Your task to perform on an android device: Show the shopping cart on bestbuy.com. Search for macbook air on bestbuy.com, select the first entry, add it to the cart, then select checkout. Image 0: 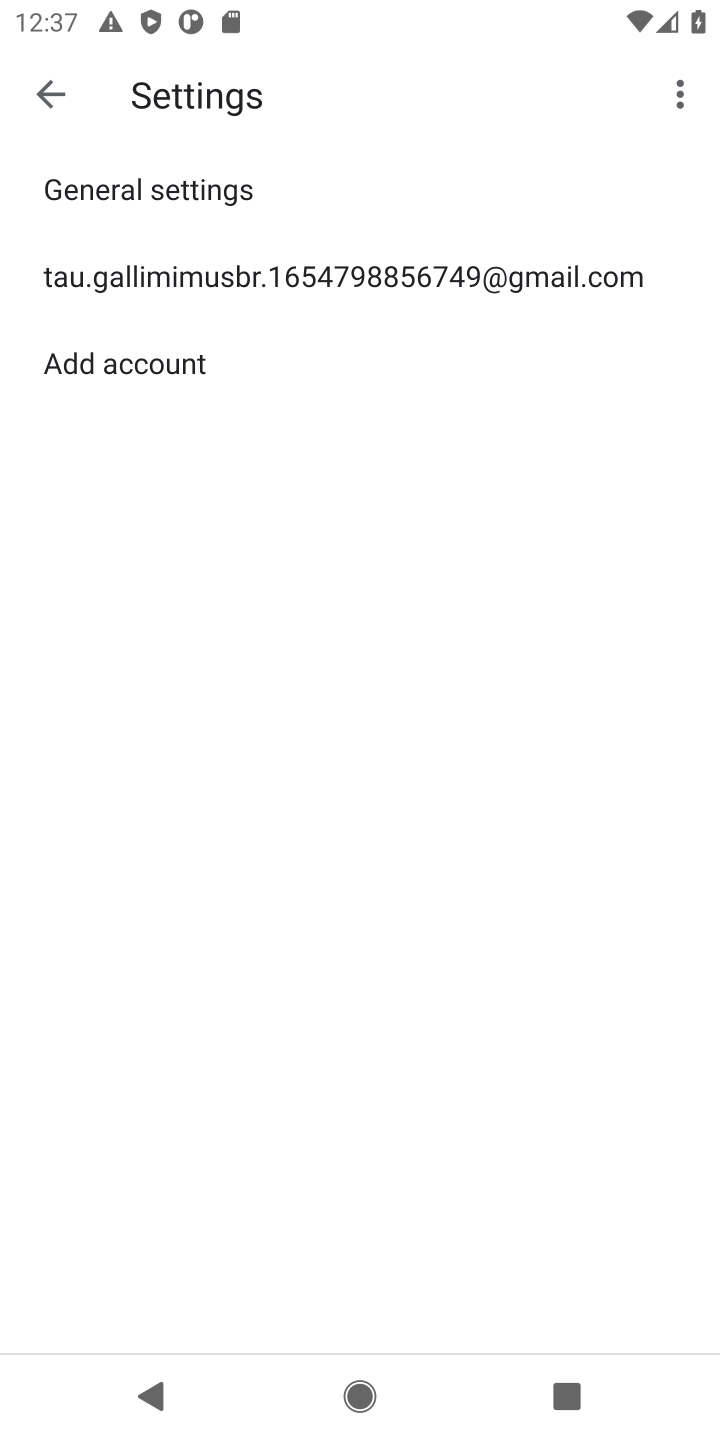
Step 0: press home button
Your task to perform on an android device: Show the shopping cart on bestbuy.com. Search for macbook air on bestbuy.com, select the first entry, add it to the cart, then select checkout. Image 1: 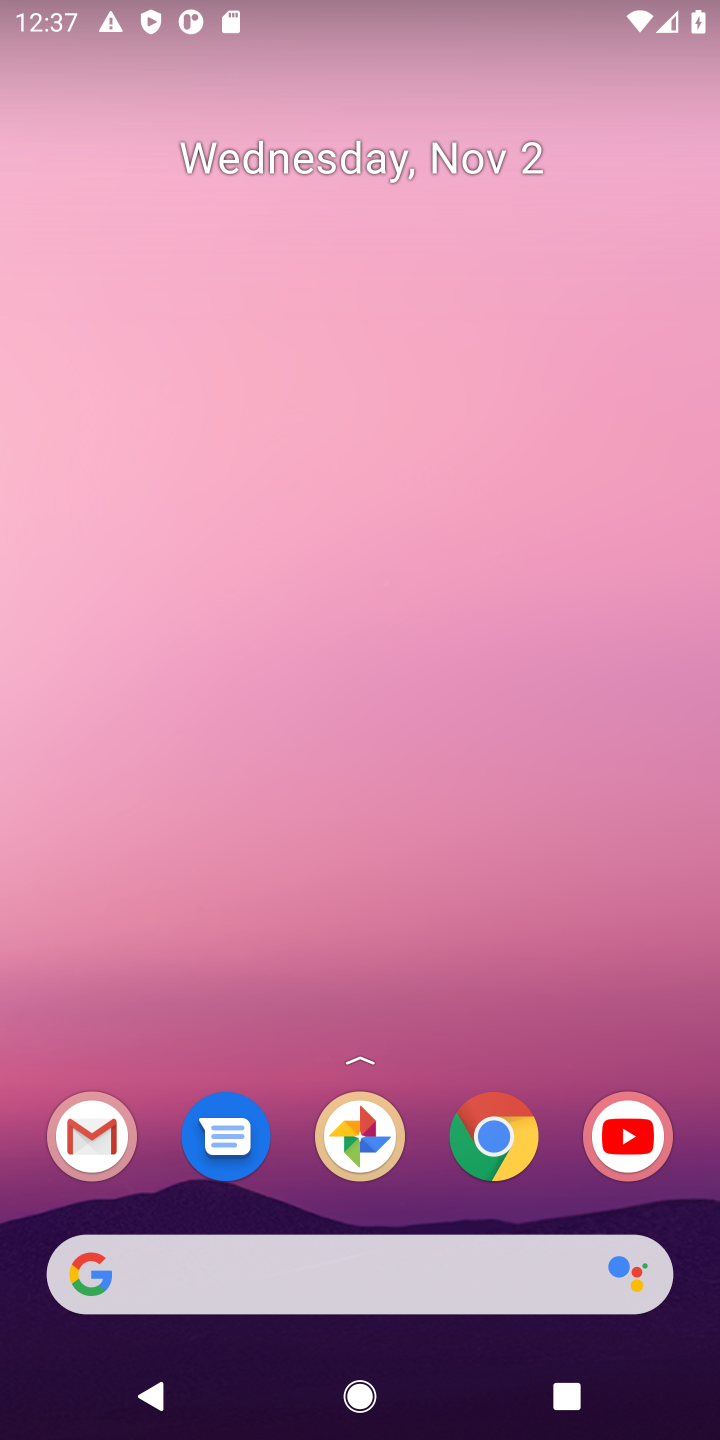
Step 1: click (497, 1130)
Your task to perform on an android device: Show the shopping cart on bestbuy.com. Search for macbook air on bestbuy.com, select the first entry, add it to the cart, then select checkout. Image 2: 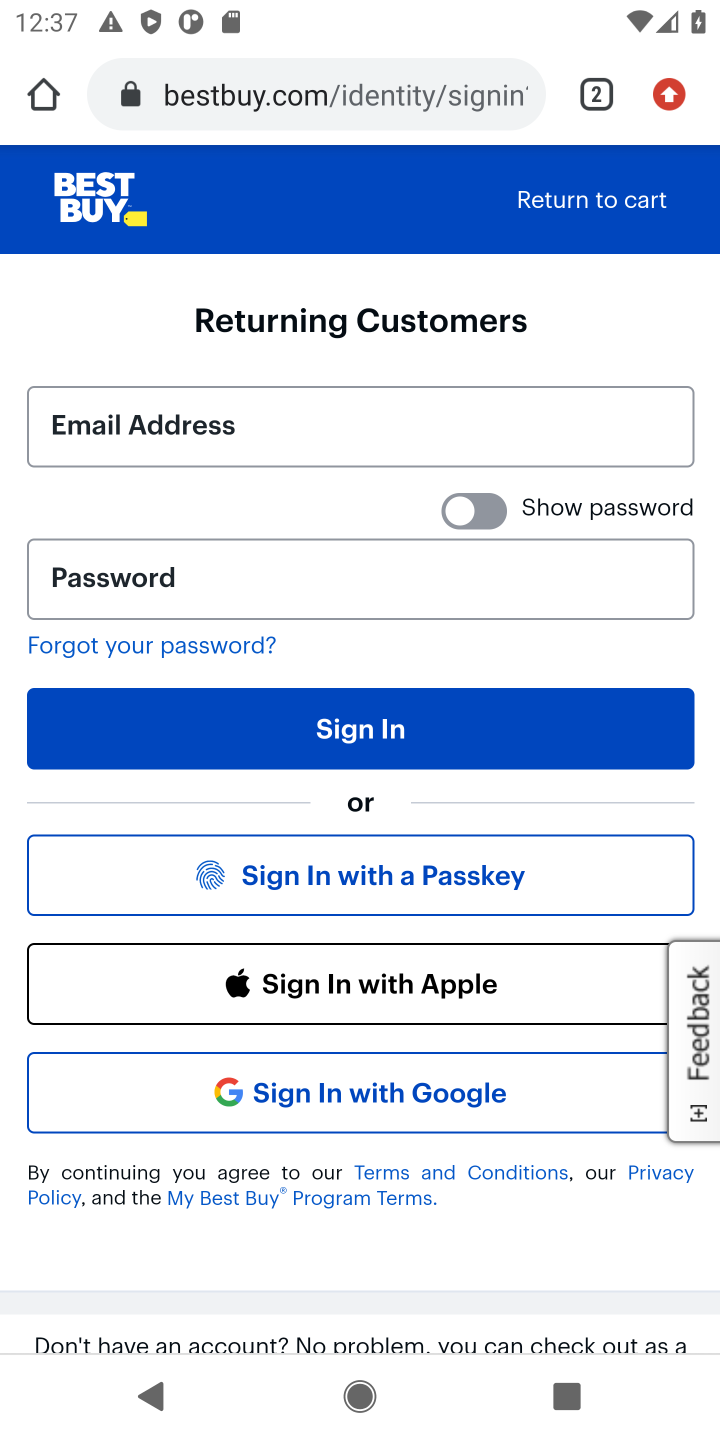
Step 2: click (220, 94)
Your task to perform on an android device: Show the shopping cart on bestbuy.com. Search for macbook air on bestbuy.com, select the first entry, add it to the cart, then select checkout. Image 3: 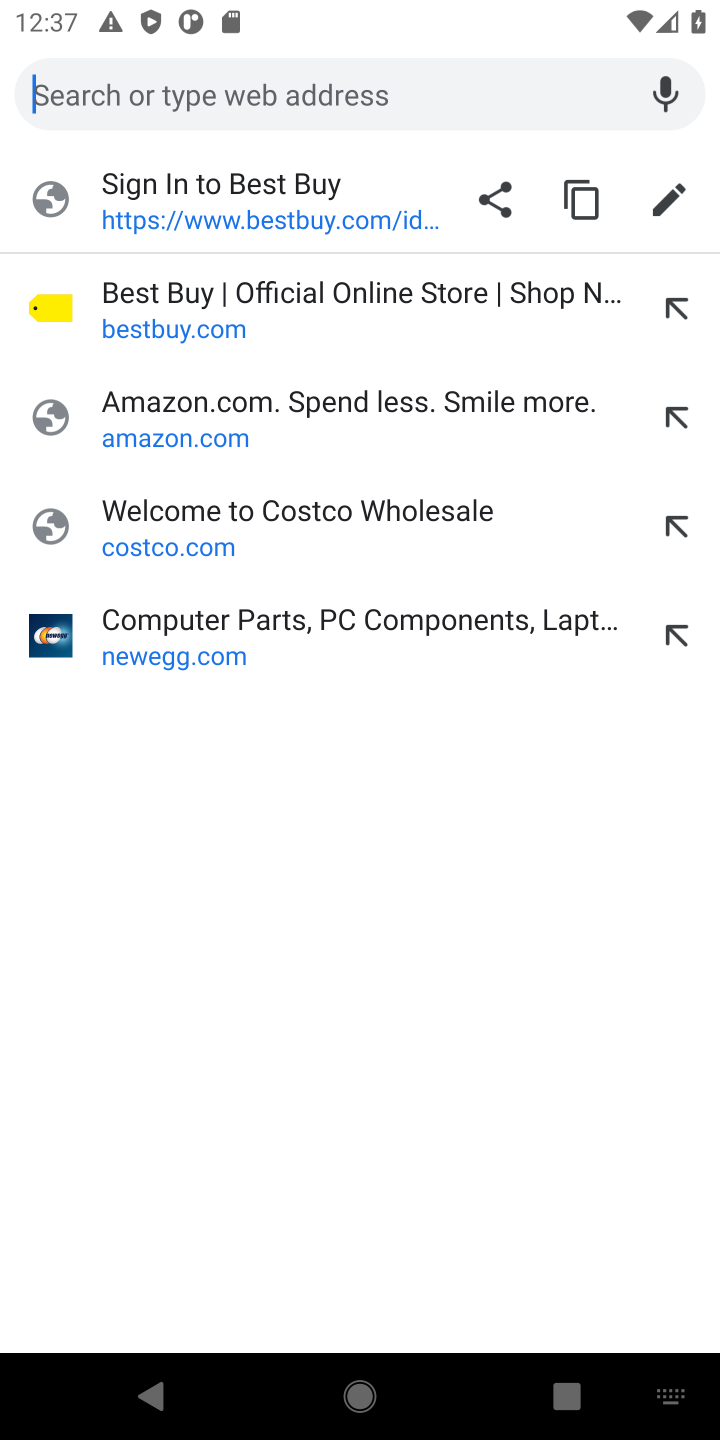
Step 3: click (218, 96)
Your task to perform on an android device: Show the shopping cart on bestbuy.com. Search for macbook air on bestbuy.com, select the first entry, add it to the cart, then select checkout. Image 4: 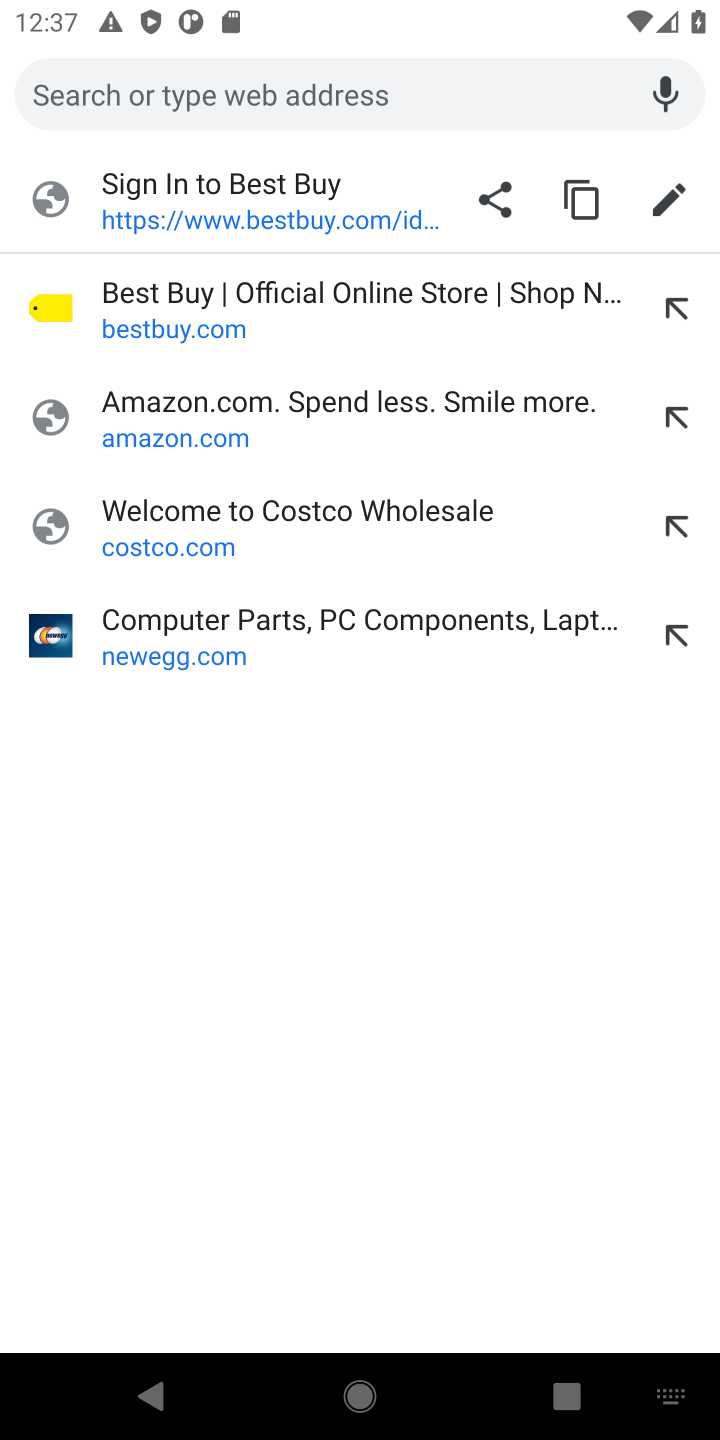
Step 4: click (225, 322)
Your task to perform on an android device: Show the shopping cart on bestbuy.com. Search for macbook air on bestbuy.com, select the first entry, add it to the cart, then select checkout. Image 5: 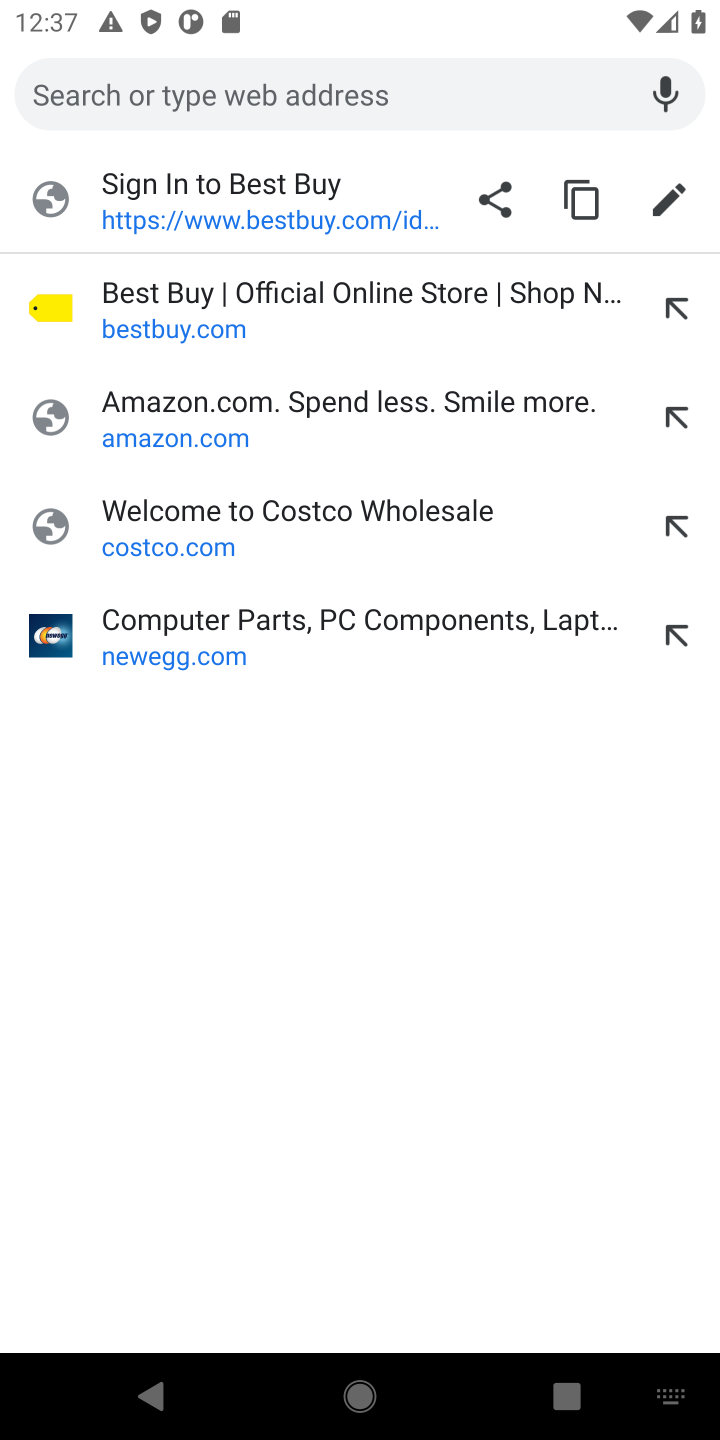
Step 5: click (241, 326)
Your task to perform on an android device: Show the shopping cart on bestbuy.com. Search for macbook air on bestbuy.com, select the first entry, add it to the cart, then select checkout. Image 6: 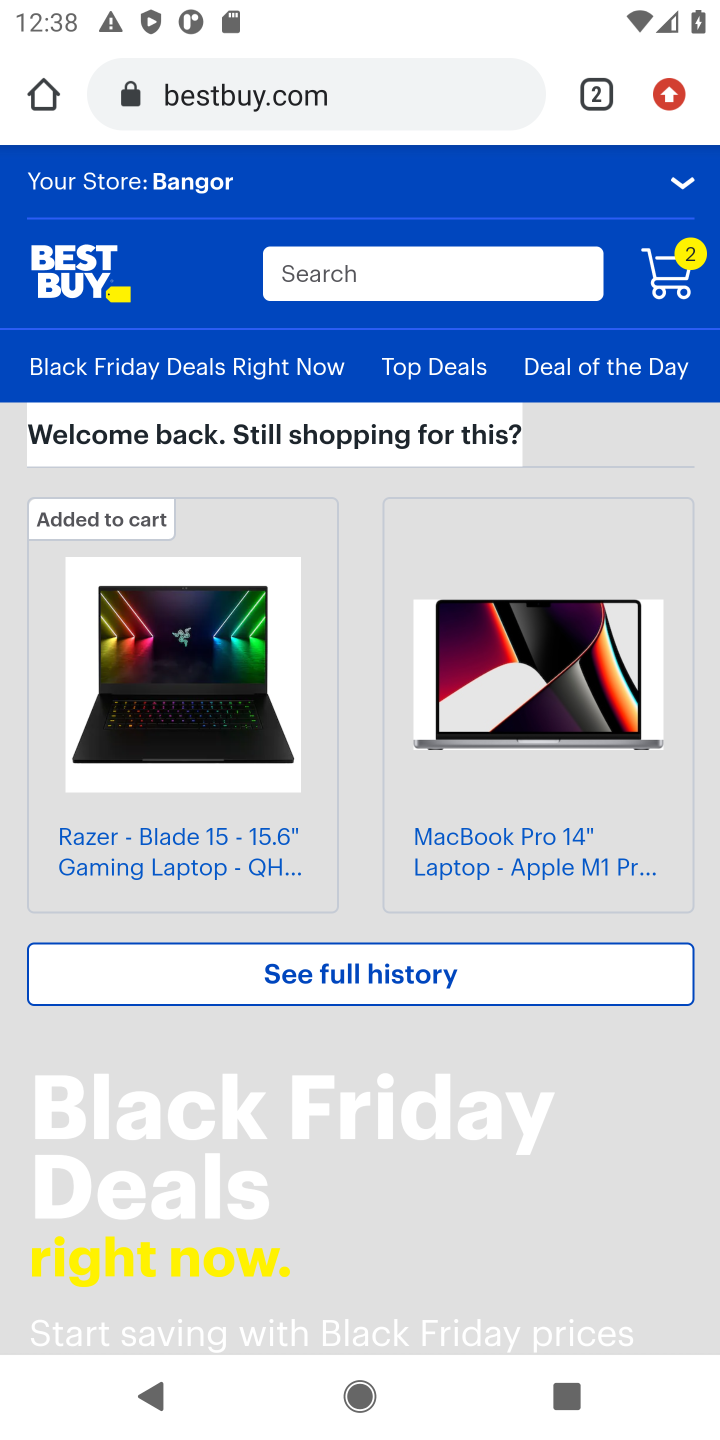
Step 6: click (663, 268)
Your task to perform on an android device: Show the shopping cart on bestbuy.com. Search for macbook air on bestbuy.com, select the first entry, add it to the cart, then select checkout. Image 7: 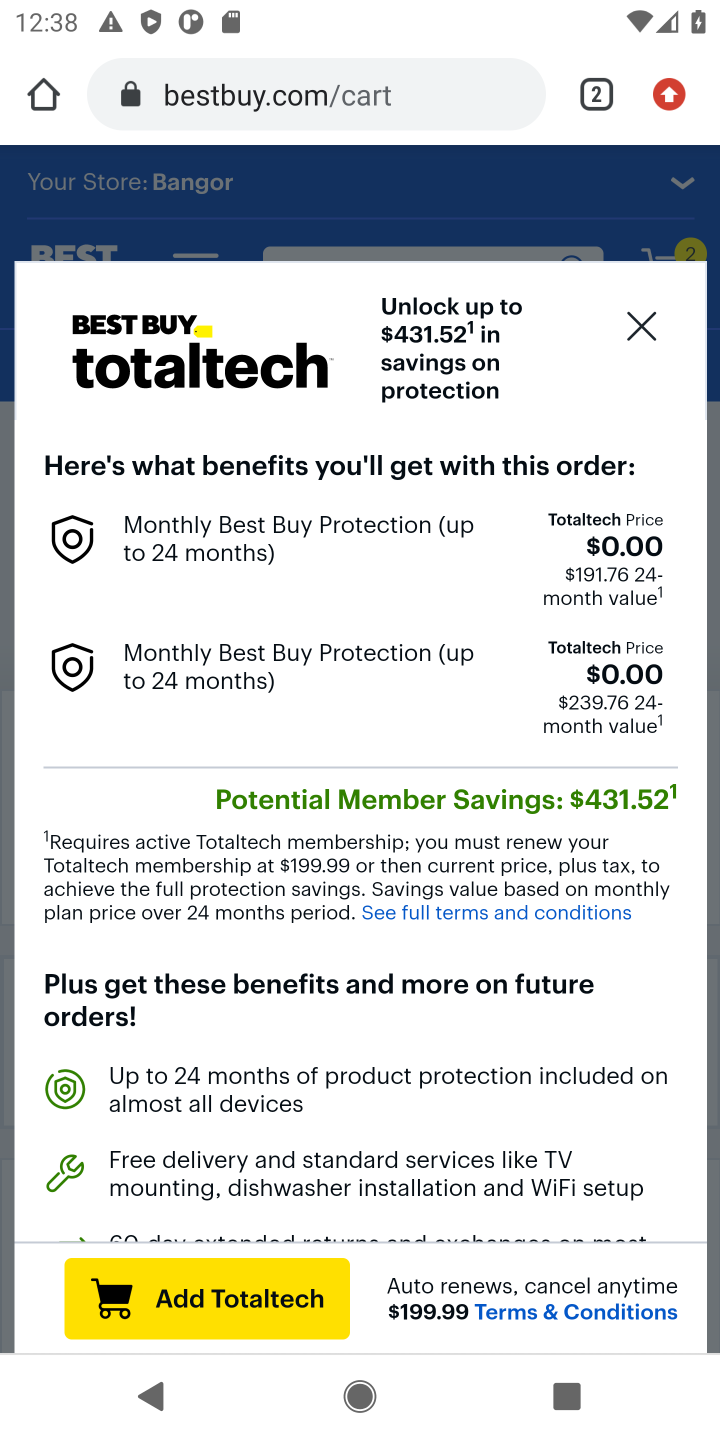
Step 7: click (644, 332)
Your task to perform on an android device: Show the shopping cart on bestbuy.com. Search for macbook air on bestbuy.com, select the first entry, add it to the cart, then select checkout. Image 8: 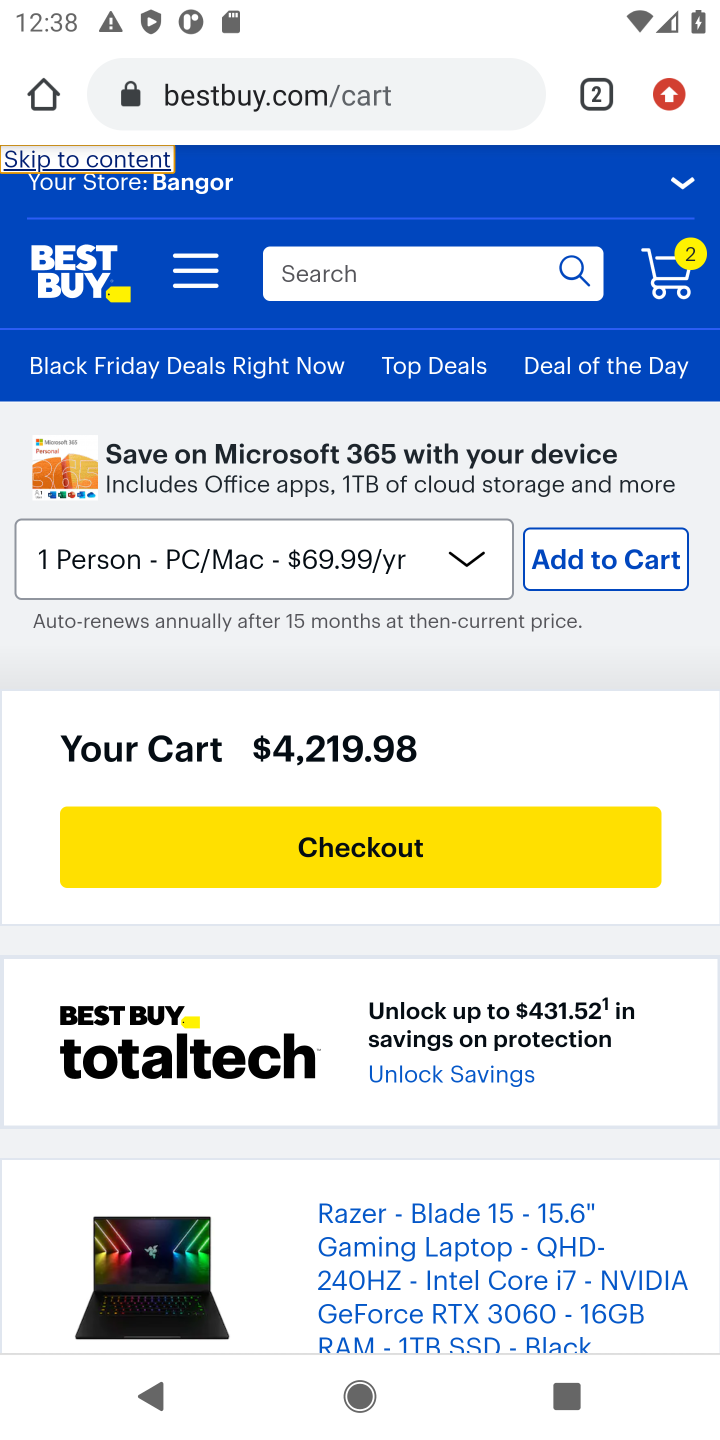
Step 8: click (478, 278)
Your task to perform on an android device: Show the shopping cart on bestbuy.com. Search for macbook air on bestbuy.com, select the first entry, add it to the cart, then select checkout. Image 9: 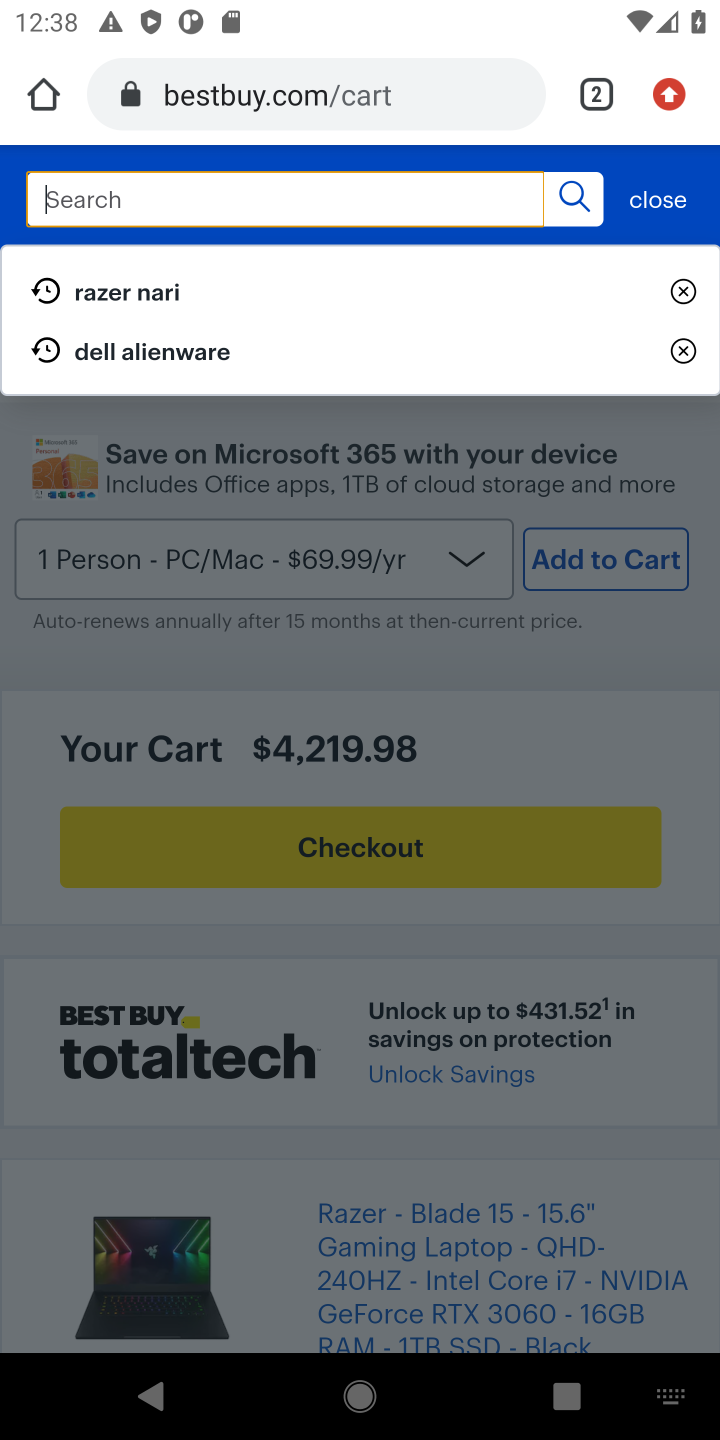
Step 9: type "macbook air"
Your task to perform on an android device: Show the shopping cart on bestbuy.com. Search for macbook air on bestbuy.com, select the first entry, add it to the cart, then select checkout. Image 10: 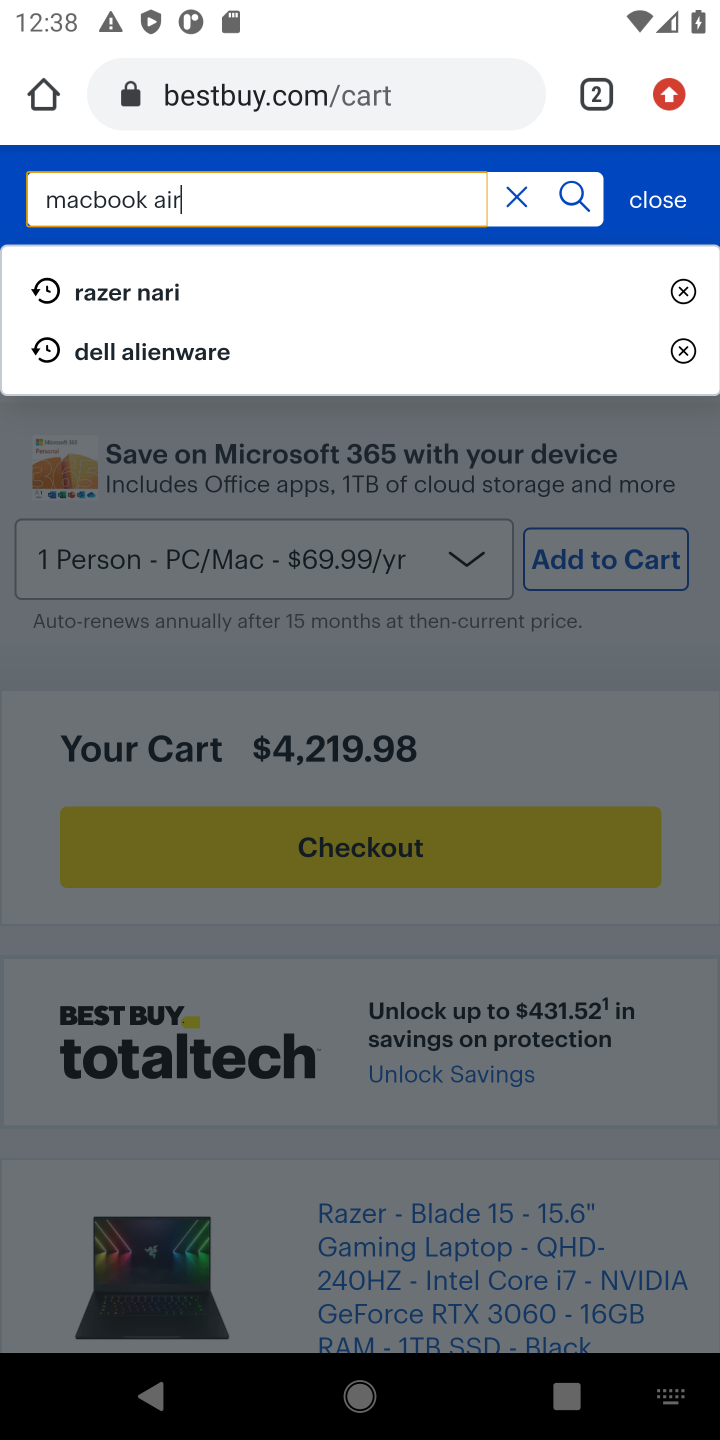
Step 10: type ""
Your task to perform on an android device: Show the shopping cart on bestbuy.com. Search for macbook air on bestbuy.com, select the first entry, add it to the cart, then select checkout. Image 11: 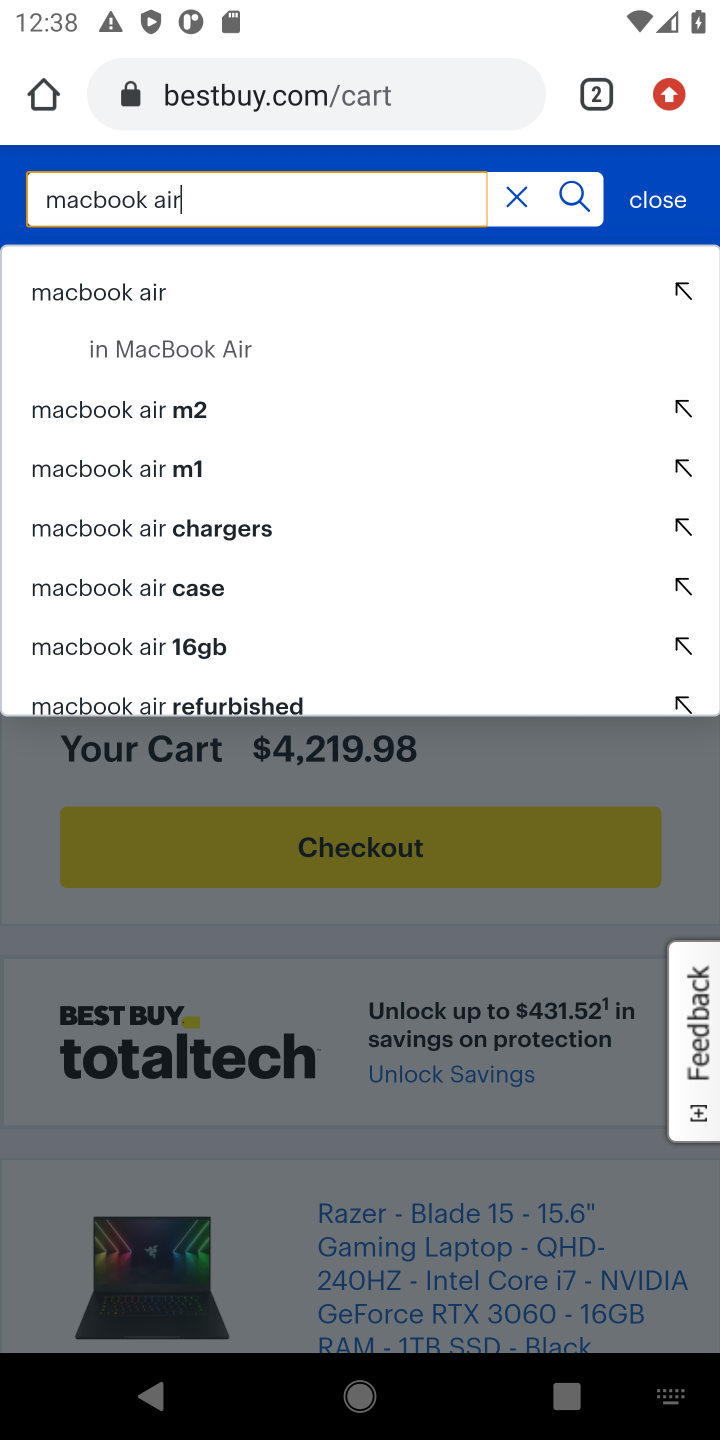
Step 11: click (162, 324)
Your task to perform on an android device: Show the shopping cart on bestbuy.com. Search for macbook air on bestbuy.com, select the first entry, add it to the cart, then select checkout. Image 12: 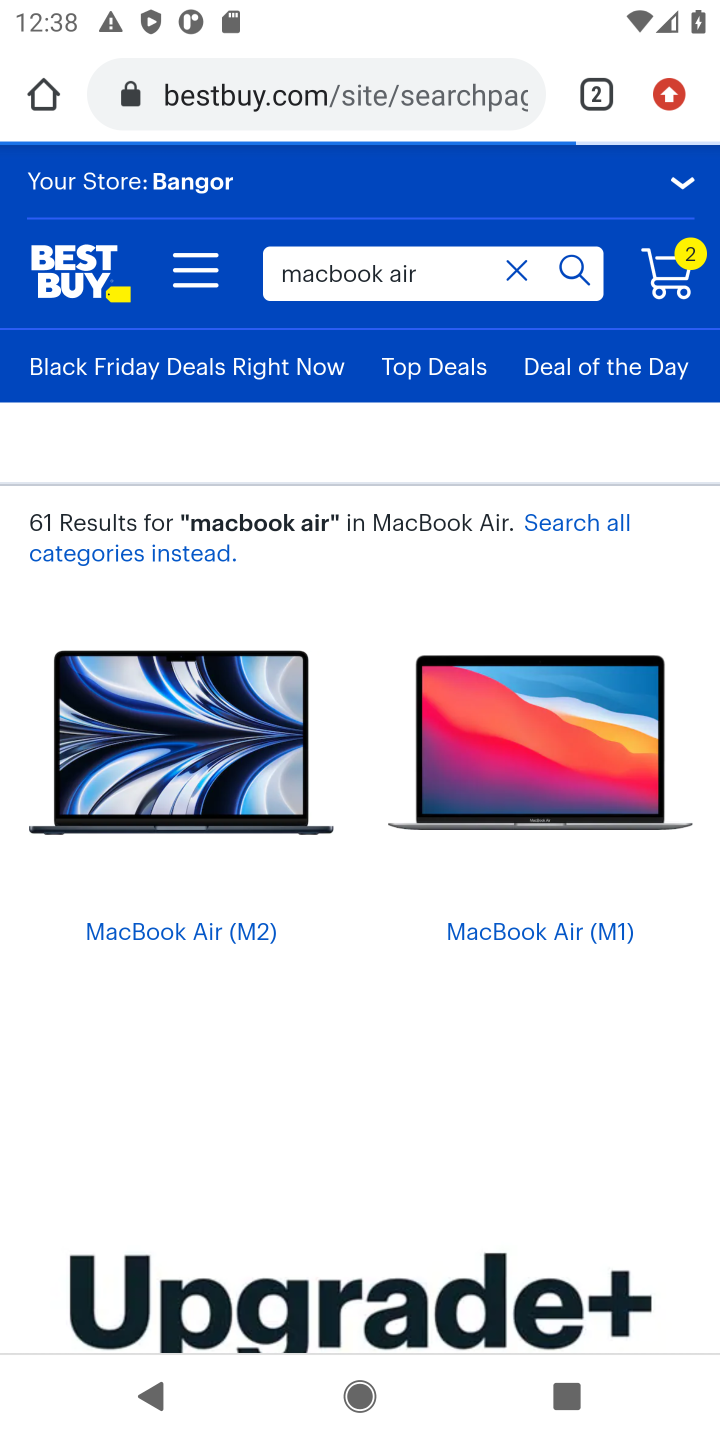
Step 12: click (310, 693)
Your task to perform on an android device: Show the shopping cart on bestbuy.com. Search for macbook air on bestbuy.com, select the first entry, add it to the cart, then select checkout. Image 13: 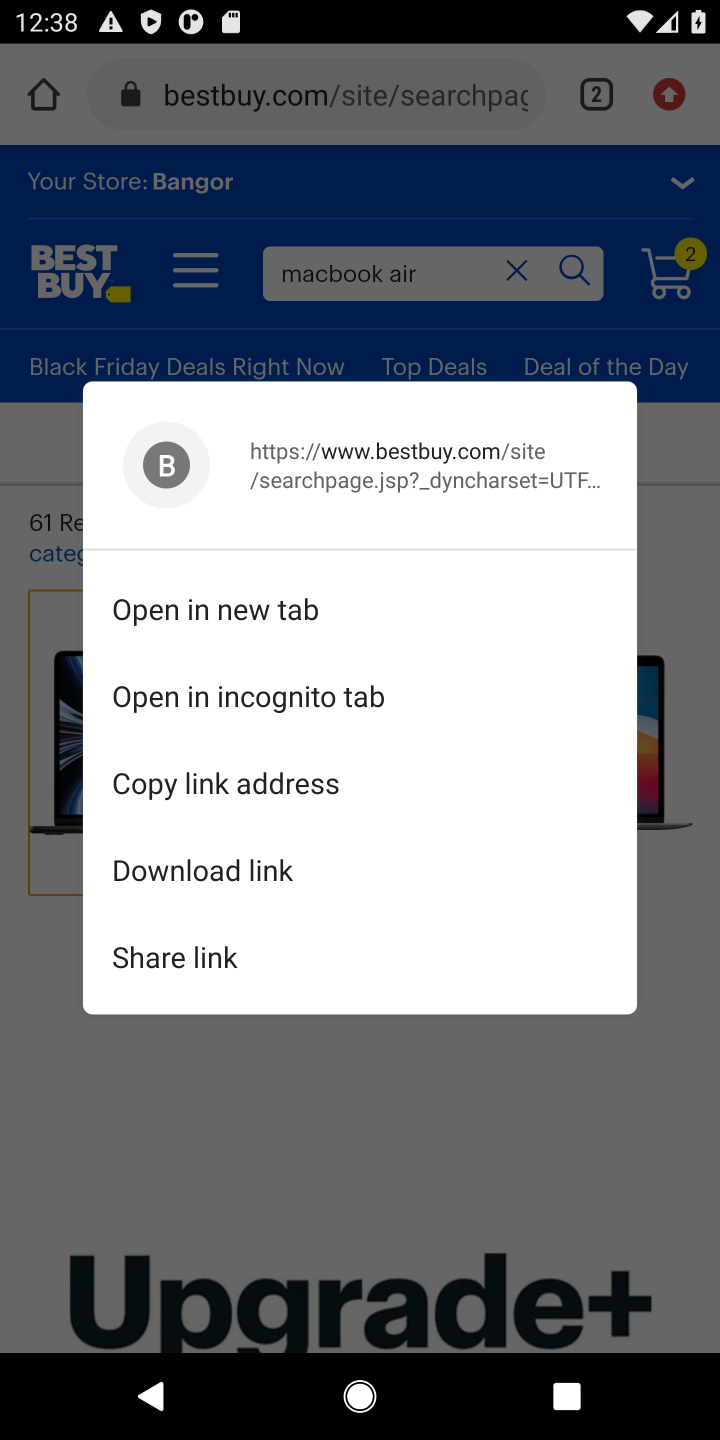
Step 13: click (424, 1044)
Your task to perform on an android device: Show the shopping cart on bestbuy.com. Search for macbook air on bestbuy.com, select the first entry, add it to the cart, then select checkout. Image 14: 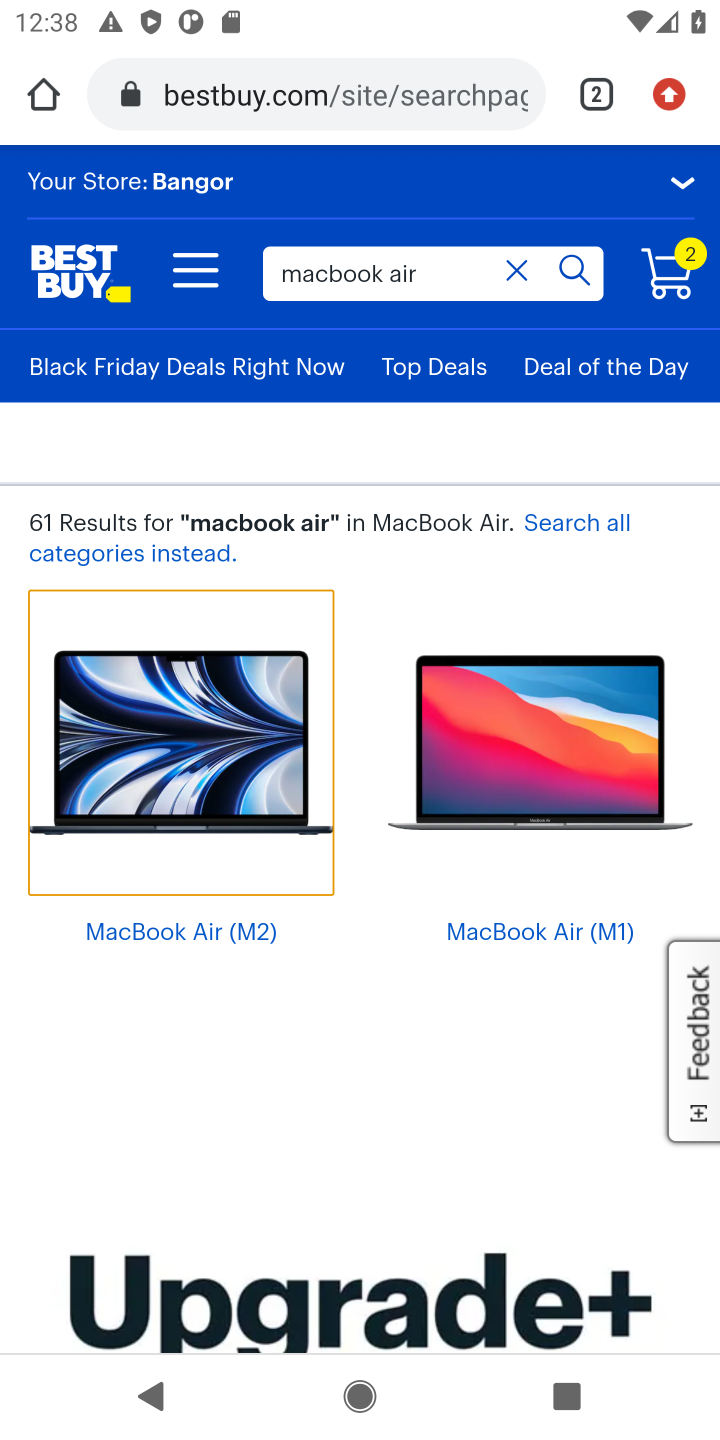
Step 14: click (228, 720)
Your task to perform on an android device: Show the shopping cart on bestbuy.com. Search for macbook air on bestbuy.com, select the first entry, add it to the cart, then select checkout. Image 15: 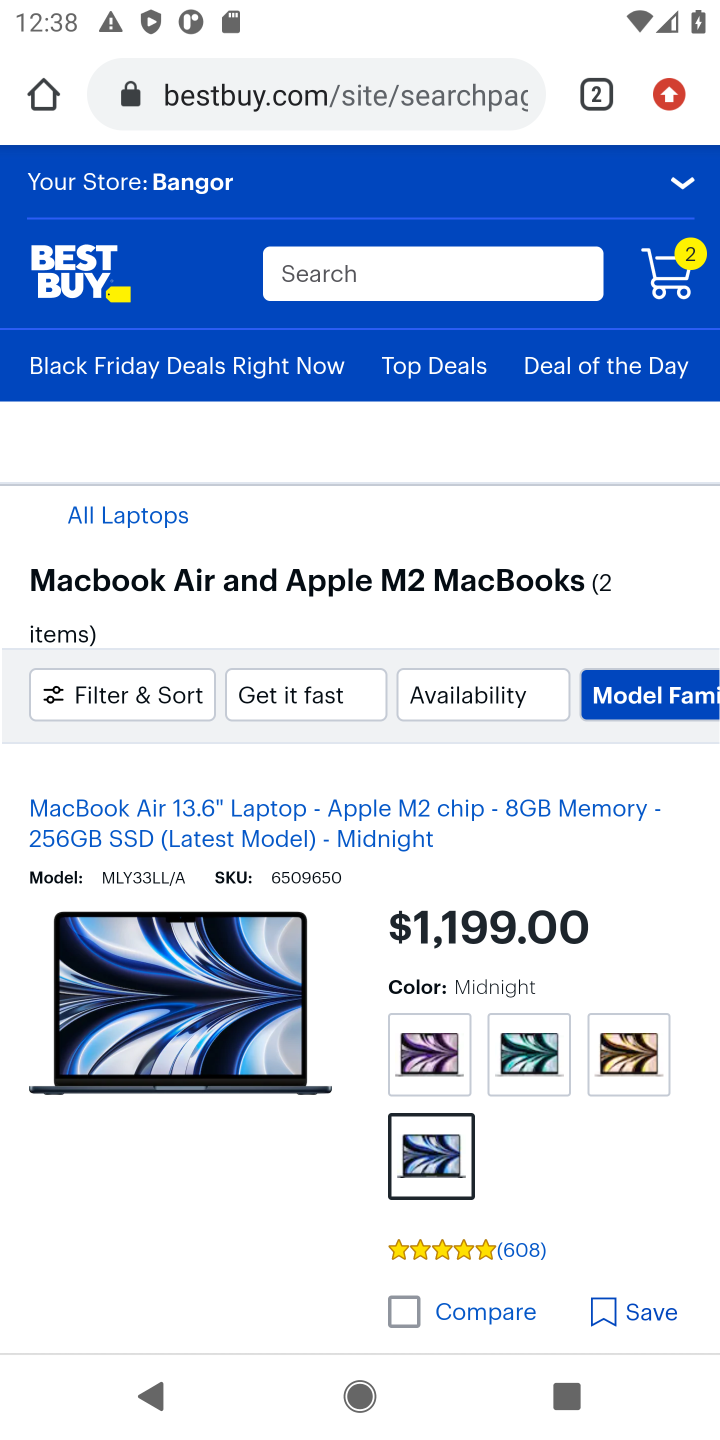
Step 15: drag from (300, 1145) to (287, 527)
Your task to perform on an android device: Show the shopping cart on bestbuy.com. Search for macbook air on bestbuy.com, select the first entry, add it to the cart, then select checkout. Image 16: 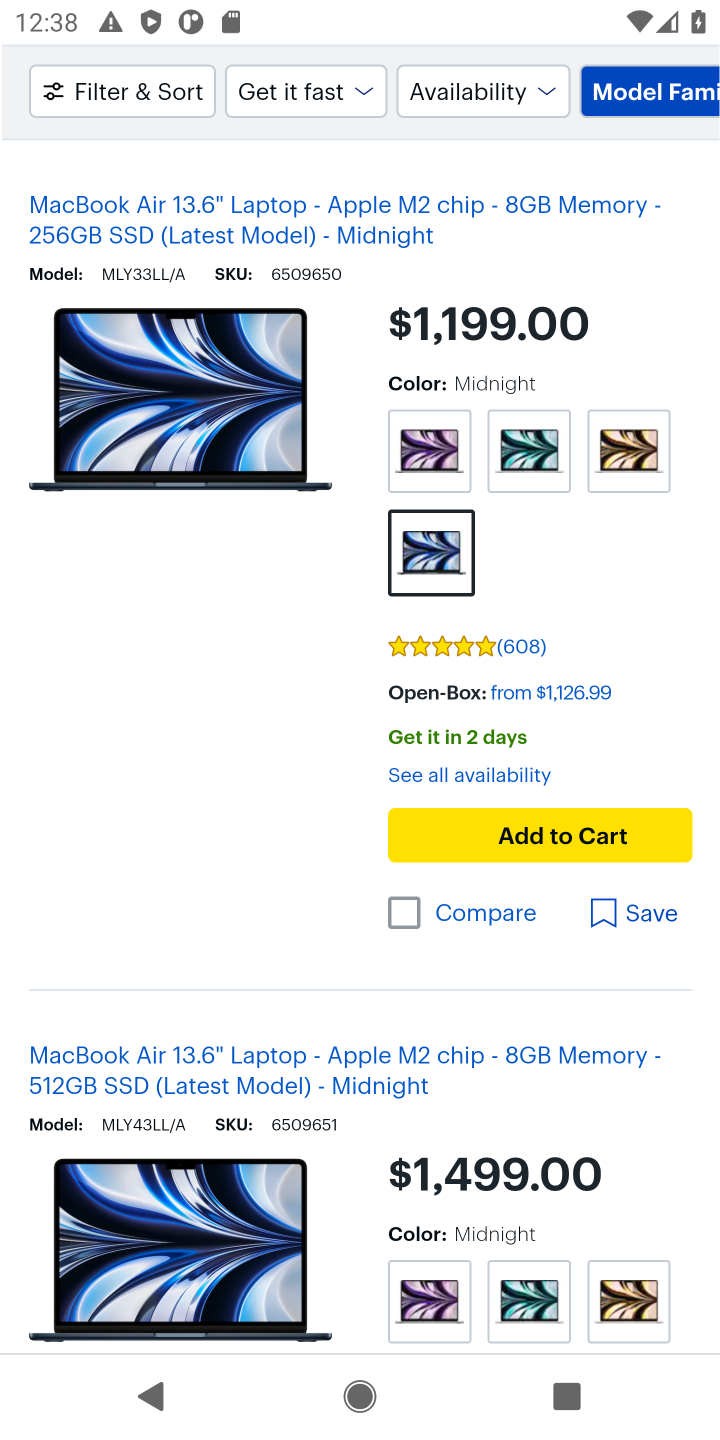
Step 16: click (530, 836)
Your task to perform on an android device: Show the shopping cart on bestbuy.com. Search for macbook air on bestbuy.com, select the first entry, add it to the cart, then select checkout. Image 17: 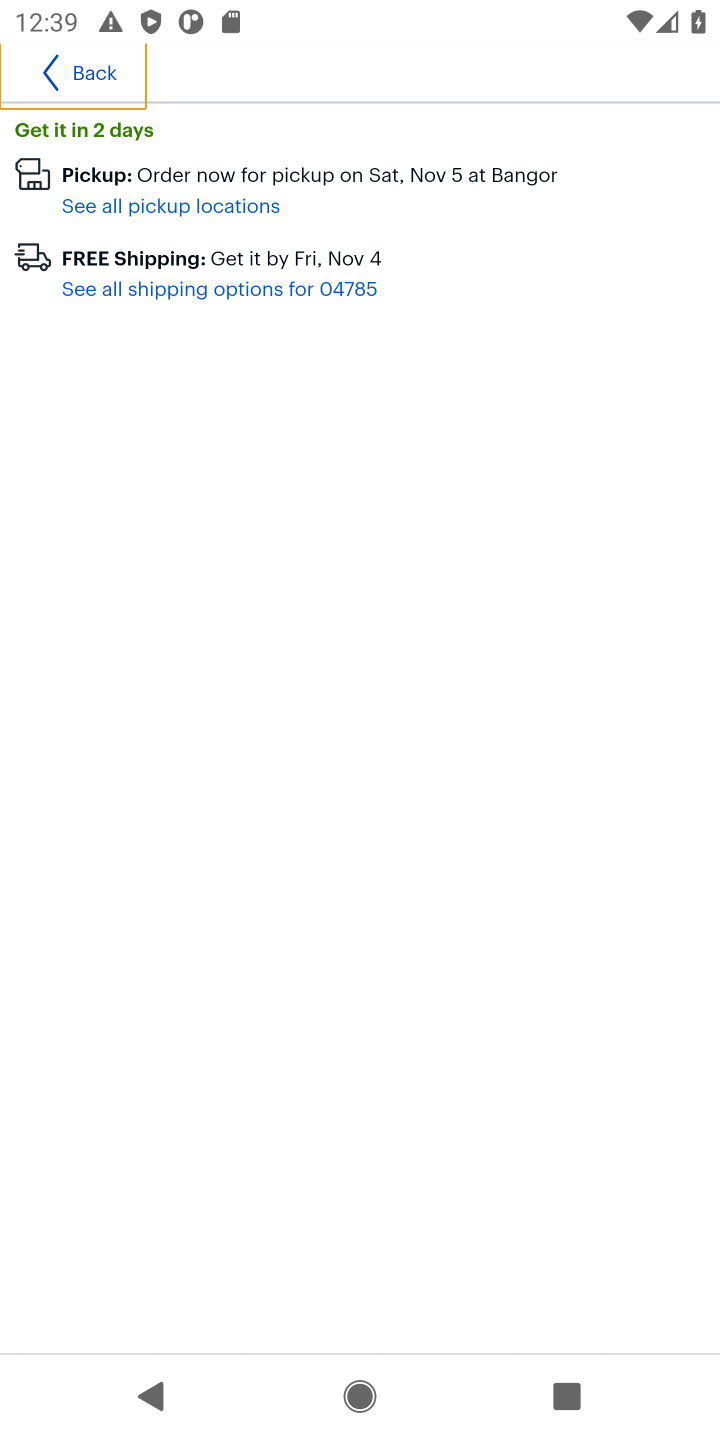
Step 17: click (188, 219)
Your task to perform on an android device: Show the shopping cart on bestbuy.com. Search for macbook air on bestbuy.com, select the first entry, add it to the cart, then select checkout. Image 18: 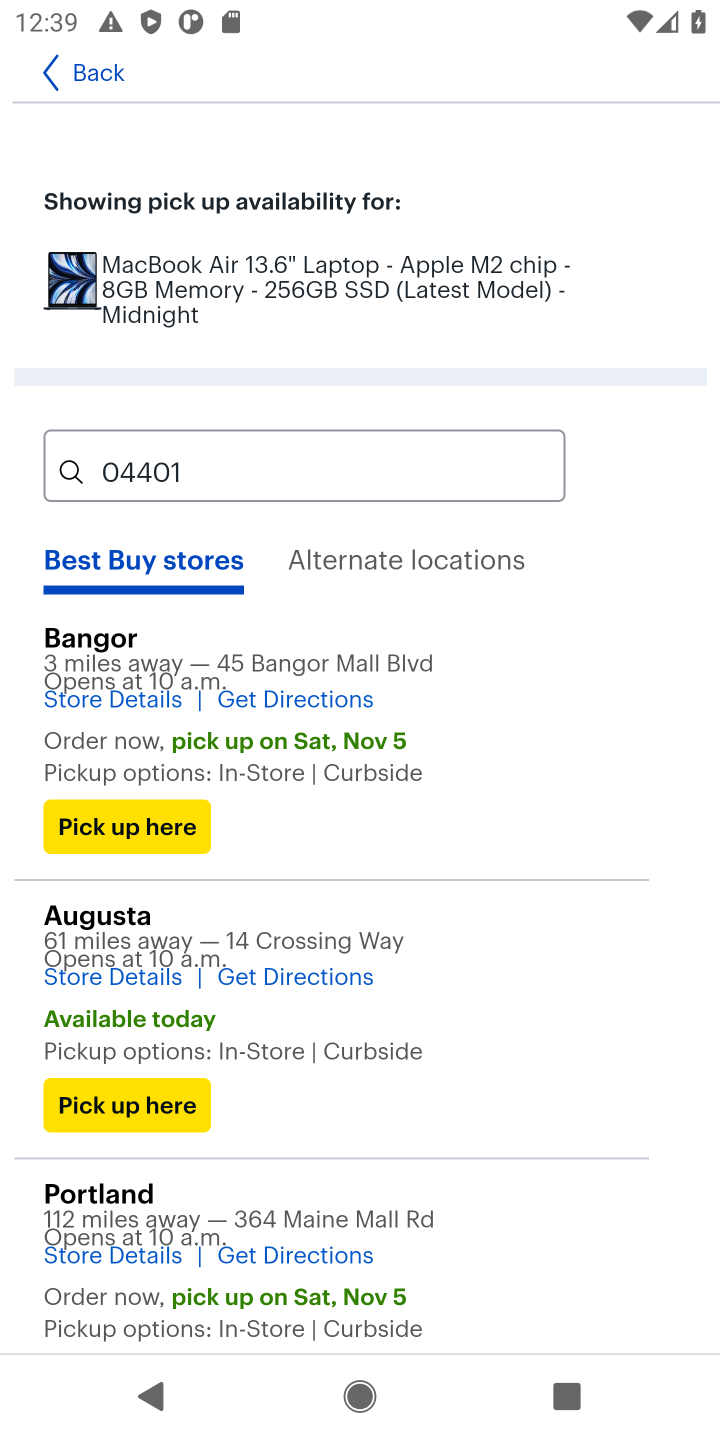
Step 18: press back button
Your task to perform on an android device: Show the shopping cart on bestbuy.com. Search for macbook air on bestbuy.com, select the first entry, add it to the cart, then select checkout. Image 19: 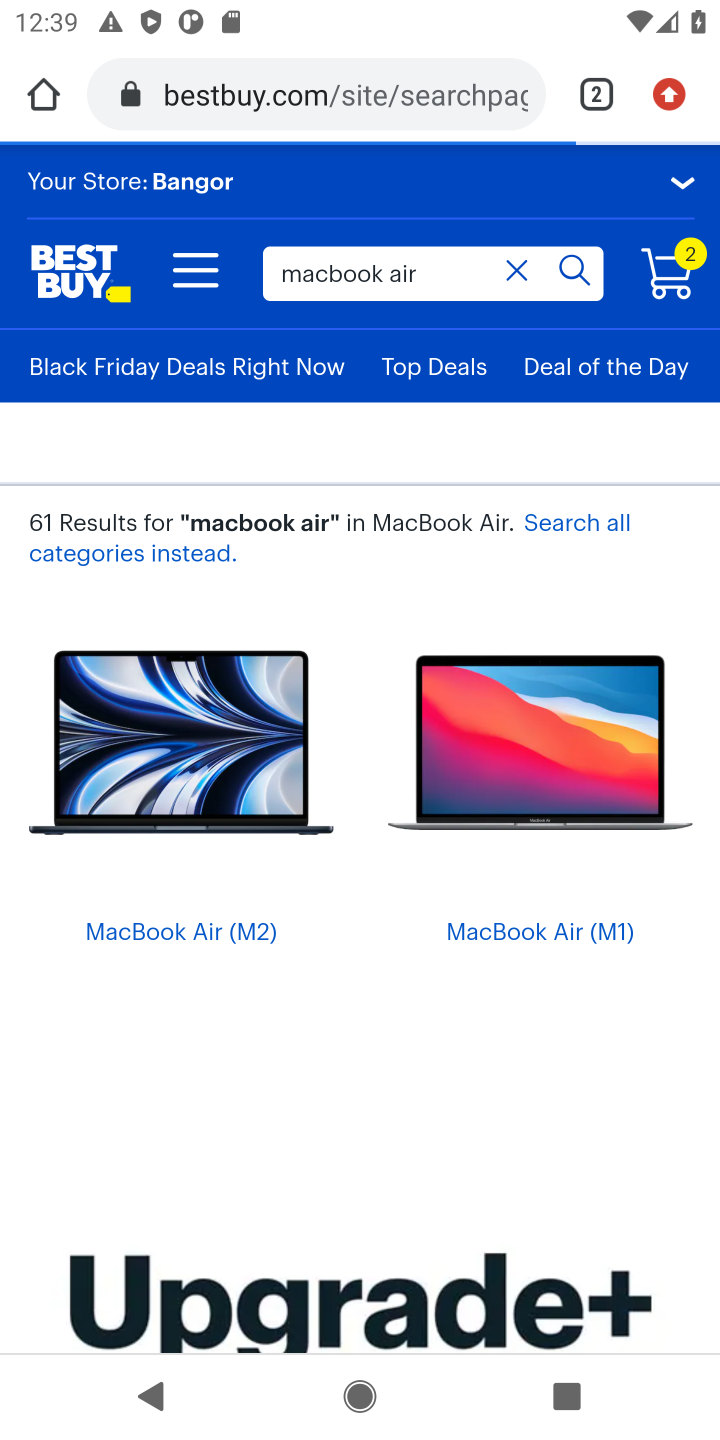
Step 19: click (248, 799)
Your task to perform on an android device: Show the shopping cart on bestbuy.com. Search for macbook air on bestbuy.com, select the first entry, add it to the cart, then select checkout. Image 20: 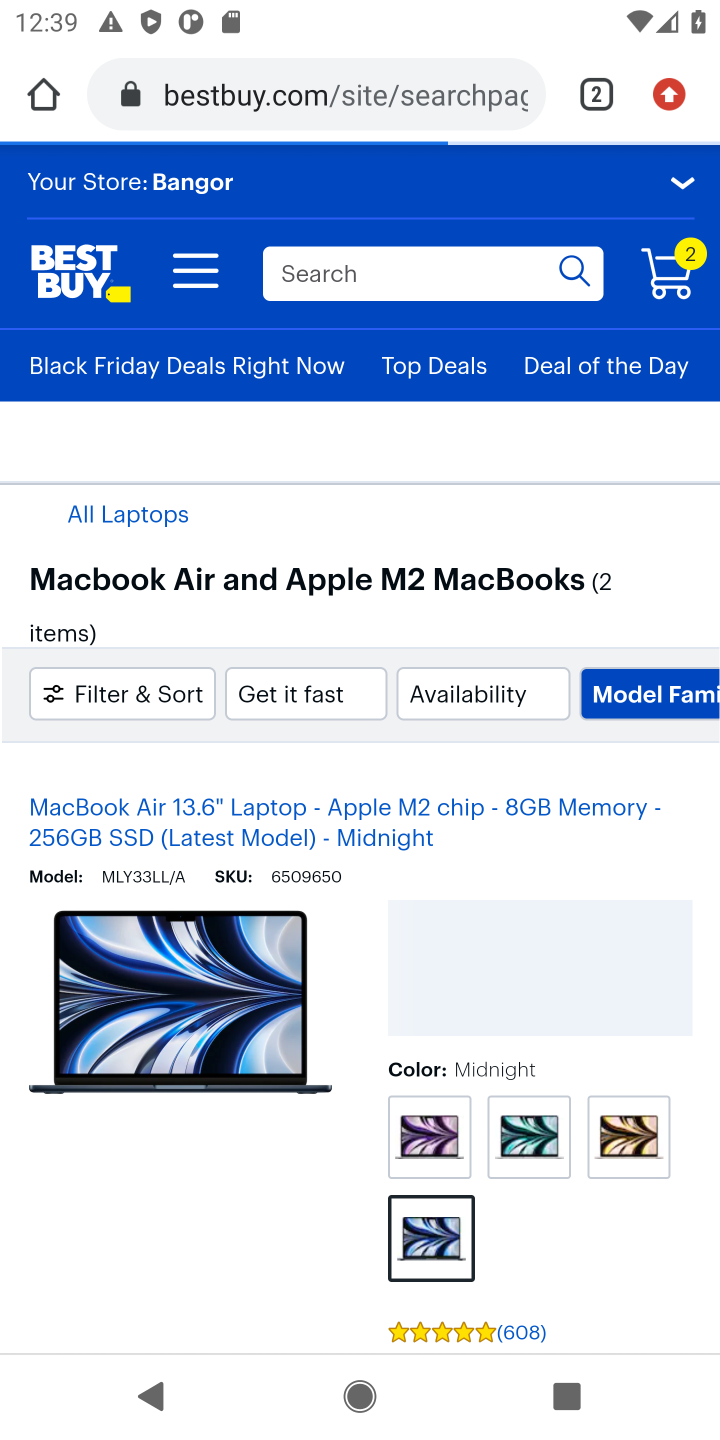
Step 20: drag from (355, 1062) to (393, 793)
Your task to perform on an android device: Show the shopping cart on bestbuy.com. Search for macbook air on bestbuy.com, select the first entry, add it to the cart, then select checkout. Image 21: 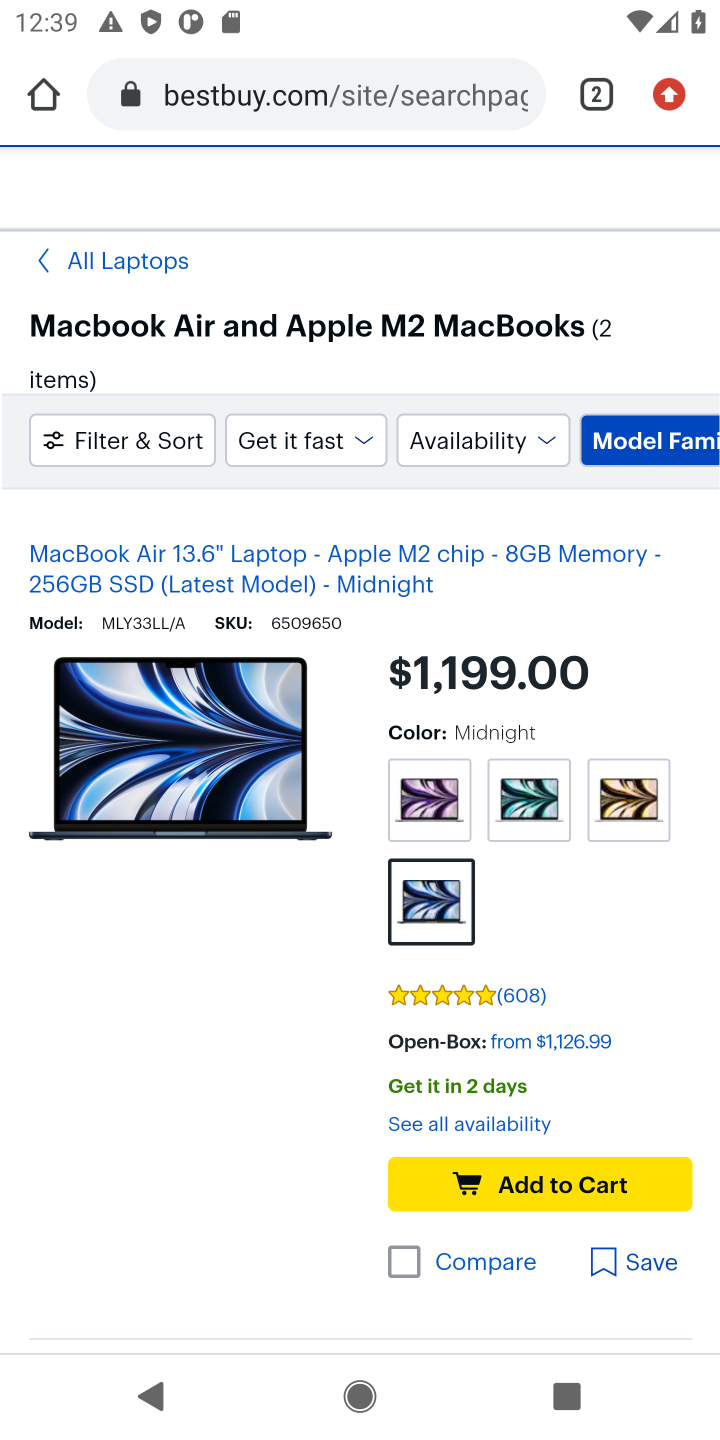
Step 21: click (483, 1236)
Your task to perform on an android device: Show the shopping cart on bestbuy.com. Search for macbook air on bestbuy.com, select the first entry, add it to the cart, then select checkout. Image 22: 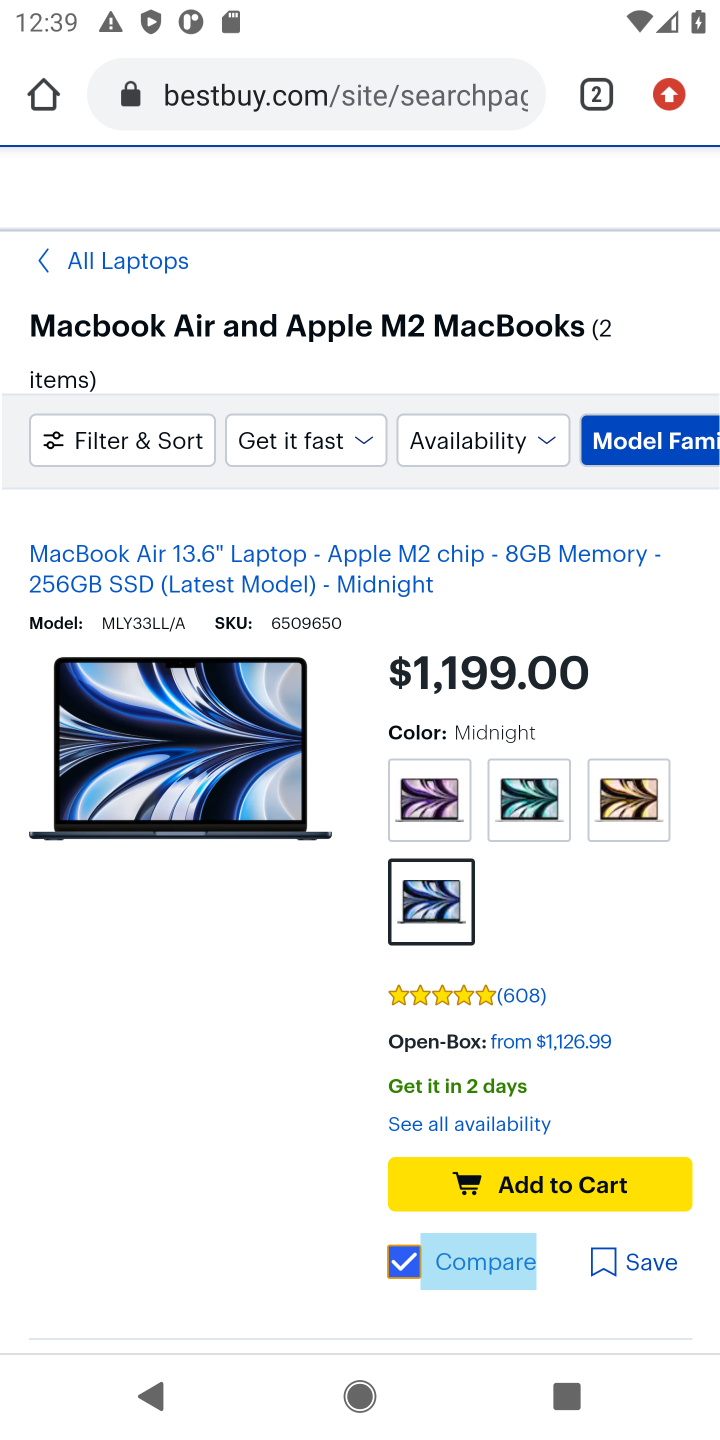
Step 22: click (477, 1193)
Your task to perform on an android device: Show the shopping cart on bestbuy.com. Search for macbook air on bestbuy.com, select the first entry, add it to the cart, then select checkout. Image 23: 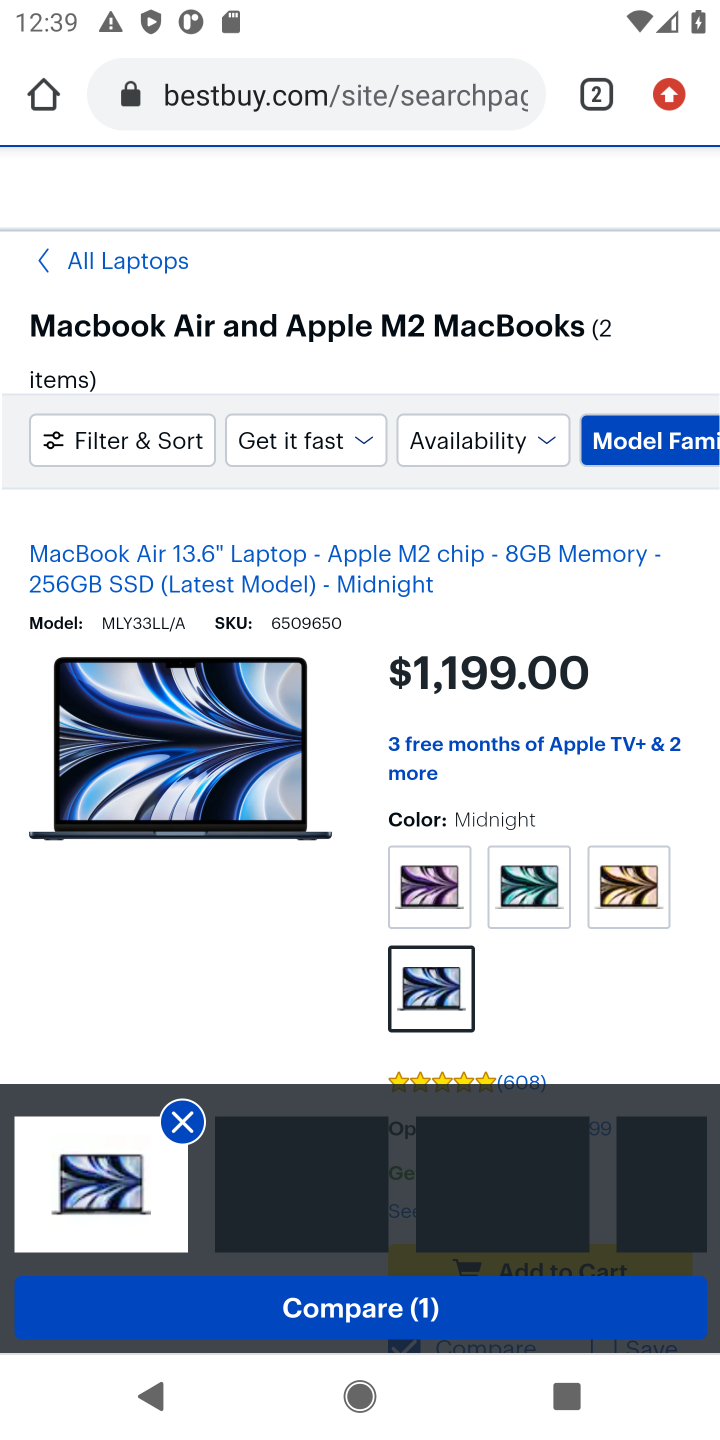
Step 23: click (186, 1118)
Your task to perform on an android device: Show the shopping cart on bestbuy.com. Search for macbook air on bestbuy.com, select the first entry, add it to the cart, then select checkout. Image 24: 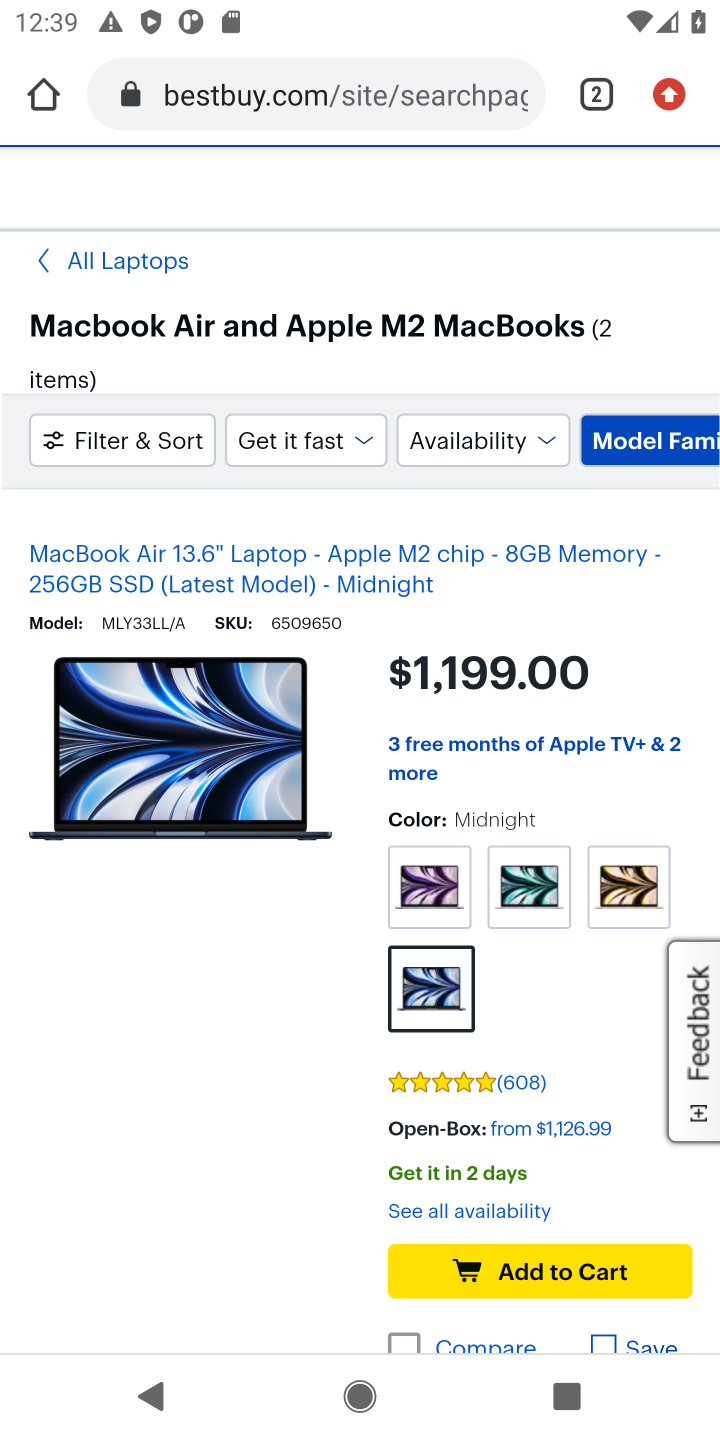
Step 24: click (190, 1022)
Your task to perform on an android device: Show the shopping cart on bestbuy.com. Search for macbook air on bestbuy.com, select the first entry, add it to the cart, then select checkout. Image 25: 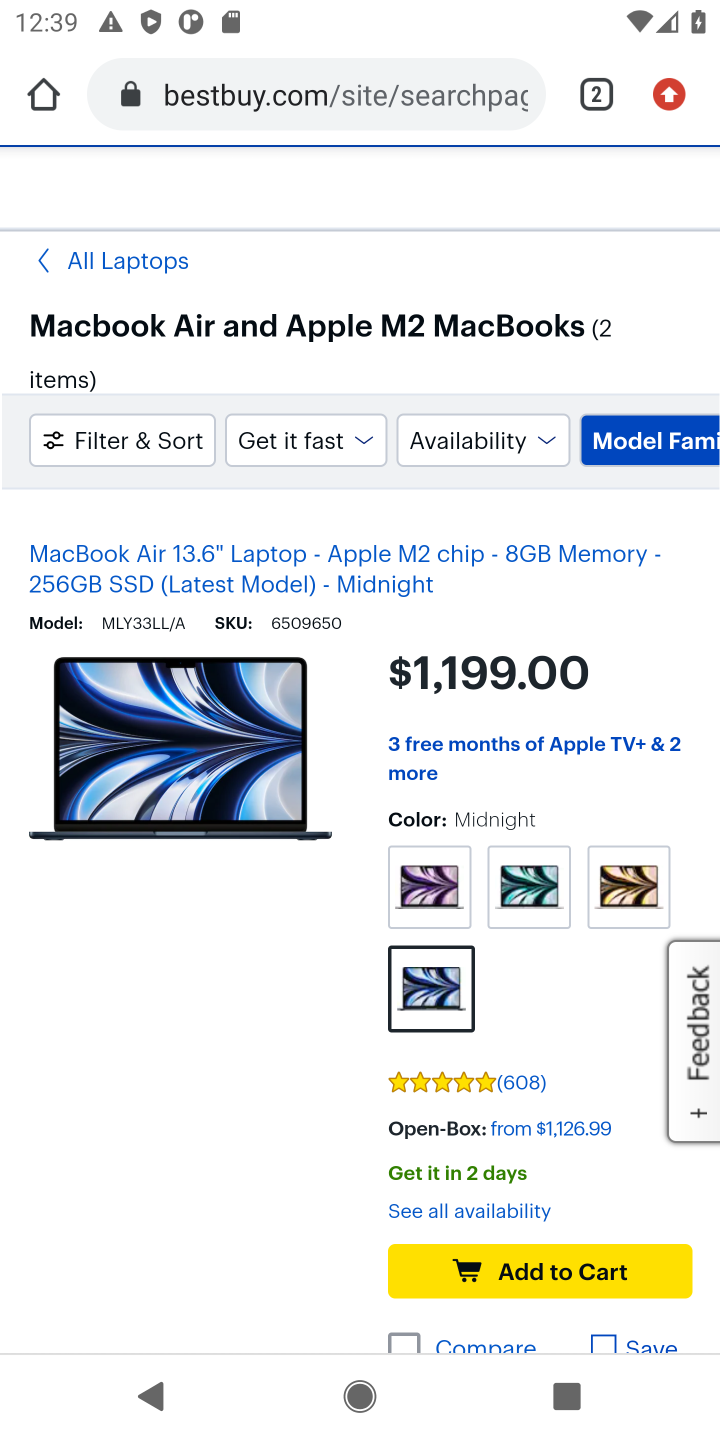
Step 25: click (486, 1256)
Your task to perform on an android device: Show the shopping cart on bestbuy.com. Search for macbook air on bestbuy.com, select the first entry, add it to the cart, then select checkout. Image 26: 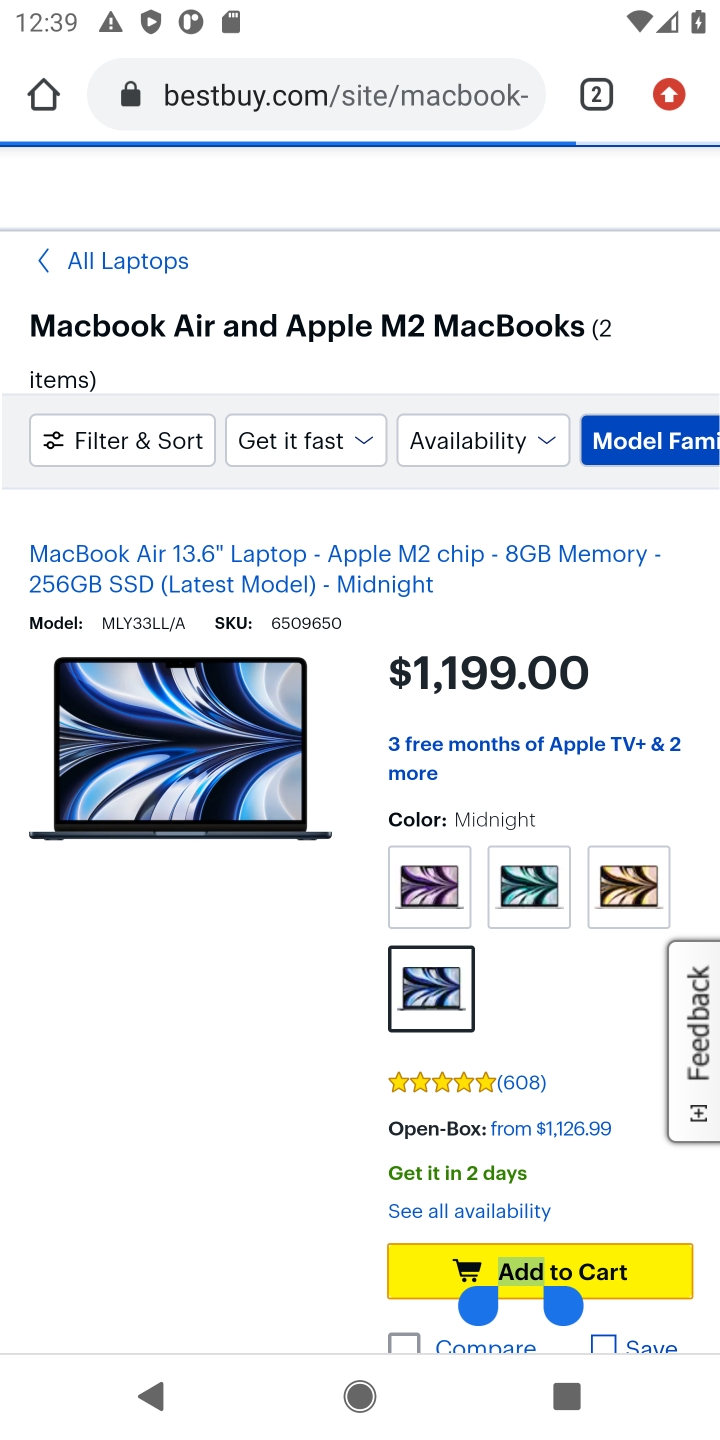
Step 26: click (556, 1262)
Your task to perform on an android device: Show the shopping cart on bestbuy.com. Search for macbook air on bestbuy.com, select the first entry, add it to the cart, then select checkout. Image 27: 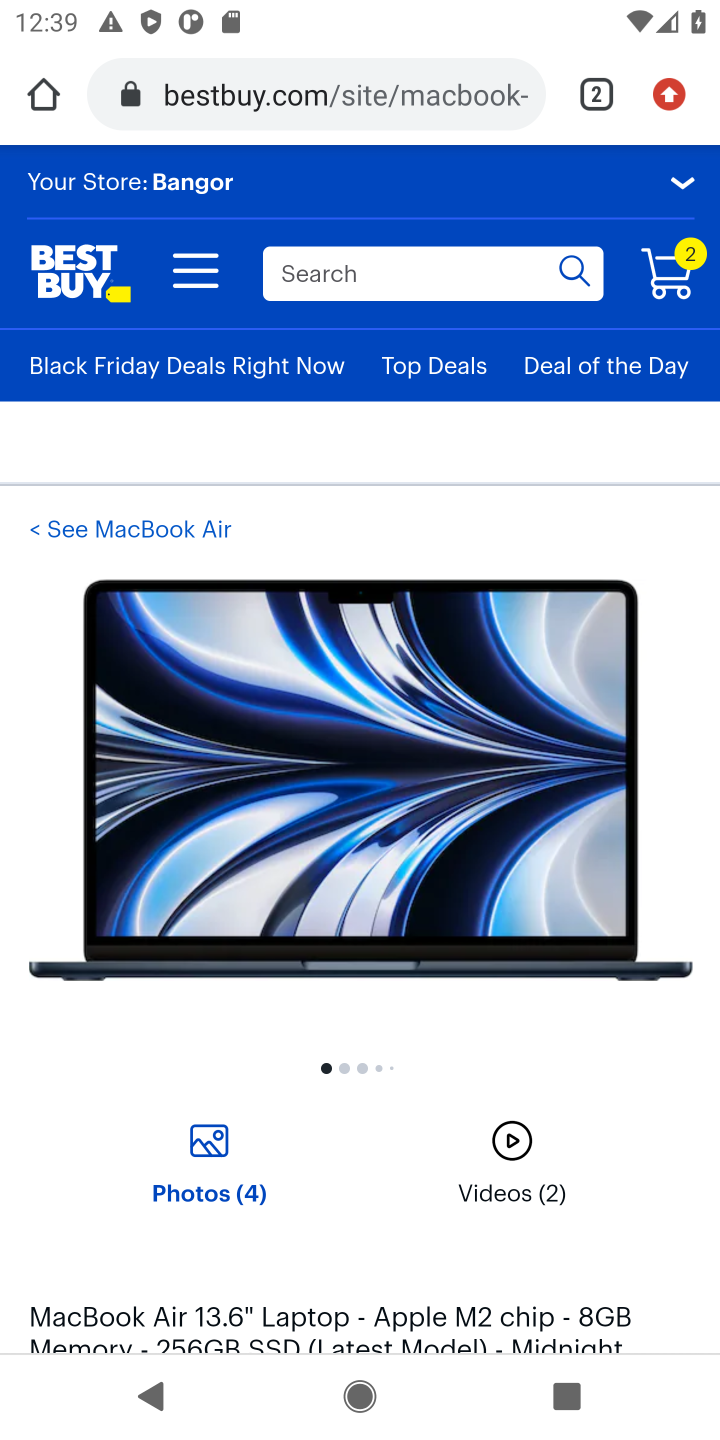
Step 27: drag from (467, 976) to (437, 498)
Your task to perform on an android device: Show the shopping cart on bestbuy.com. Search for macbook air on bestbuy.com, select the first entry, add it to the cart, then select checkout. Image 28: 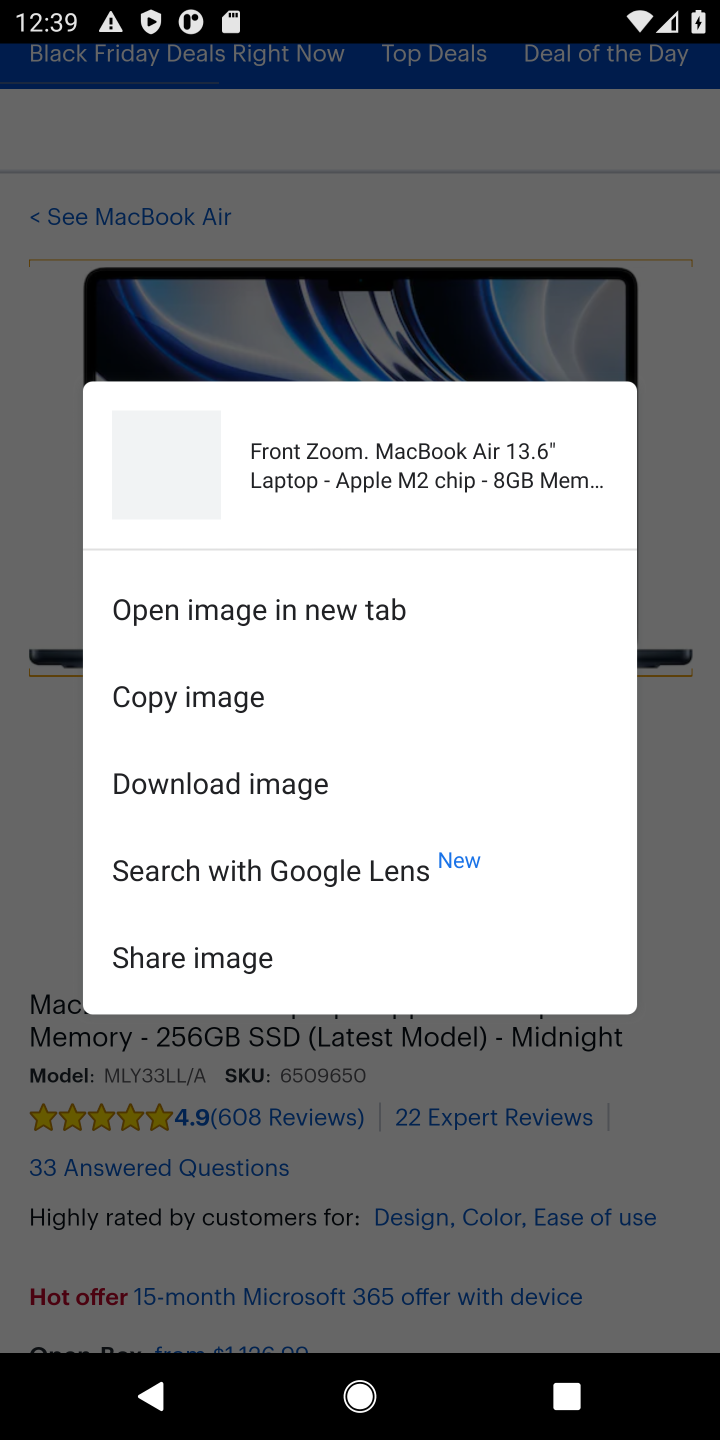
Step 28: drag from (470, 961) to (453, 327)
Your task to perform on an android device: Show the shopping cart on bestbuy.com. Search for macbook air on bestbuy.com, select the first entry, add it to the cart, then select checkout. Image 29: 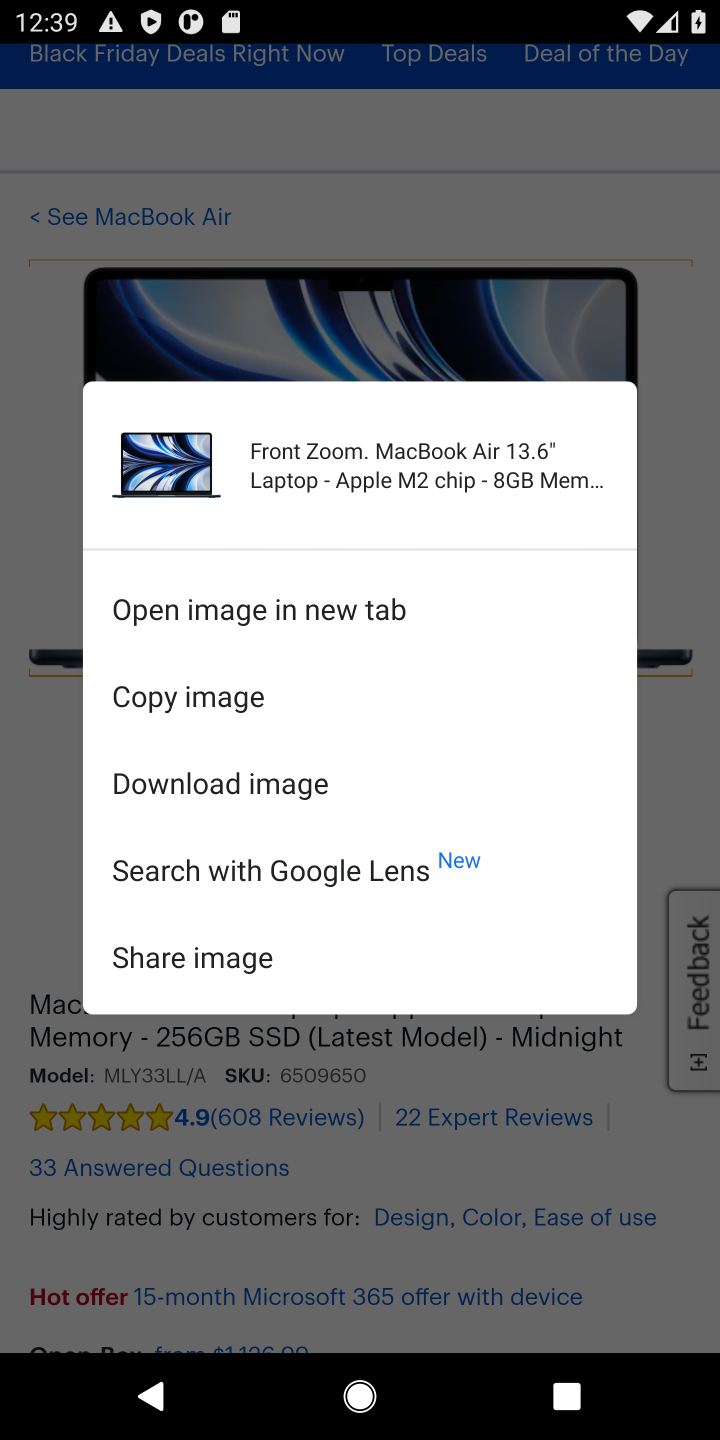
Step 29: click (701, 886)
Your task to perform on an android device: Show the shopping cart on bestbuy.com. Search for macbook air on bestbuy.com, select the first entry, add it to the cart, then select checkout. Image 30: 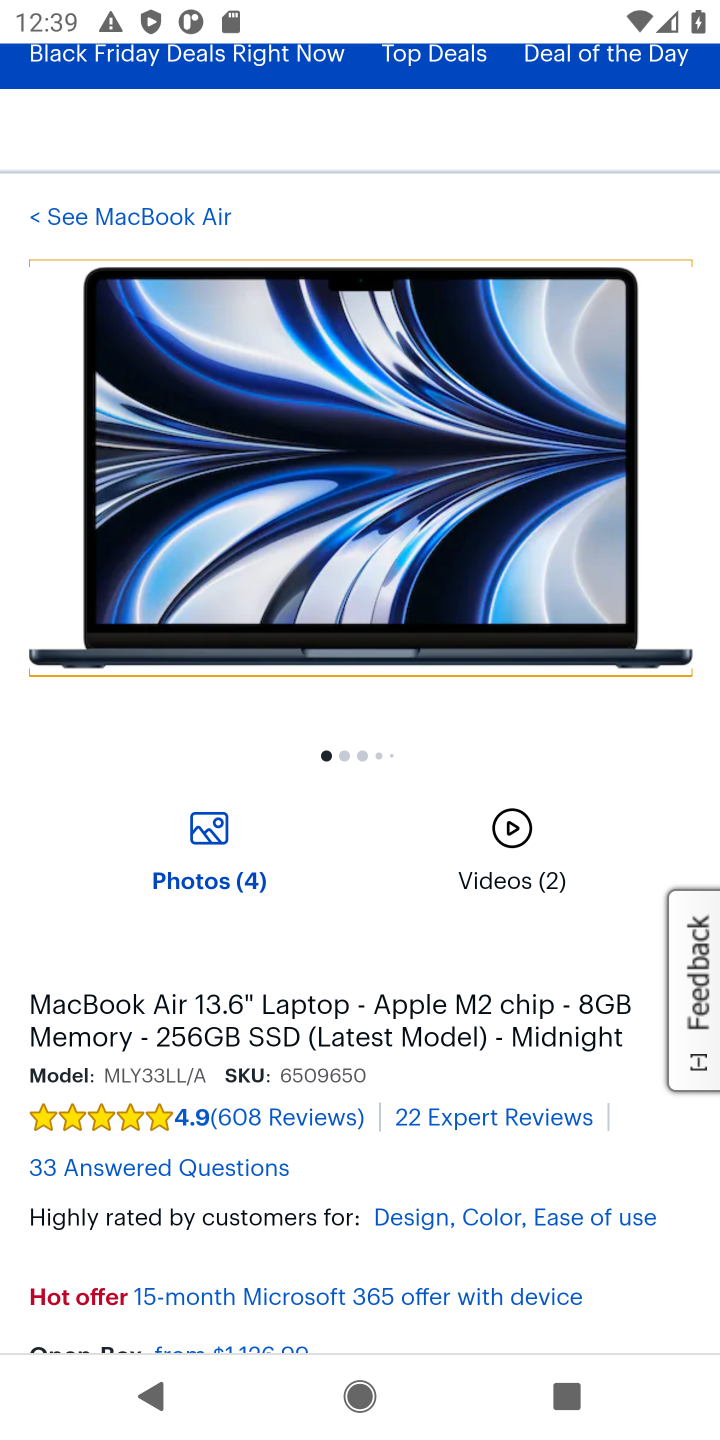
Step 30: drag from (511, 745) to (490, 376)
Your task to perform on an android device: Show the shopping cart on bestbuy.com. Search for macbook air on bestbuy.com, select the first entry, add it to the cart, then select checkout. Image 31: 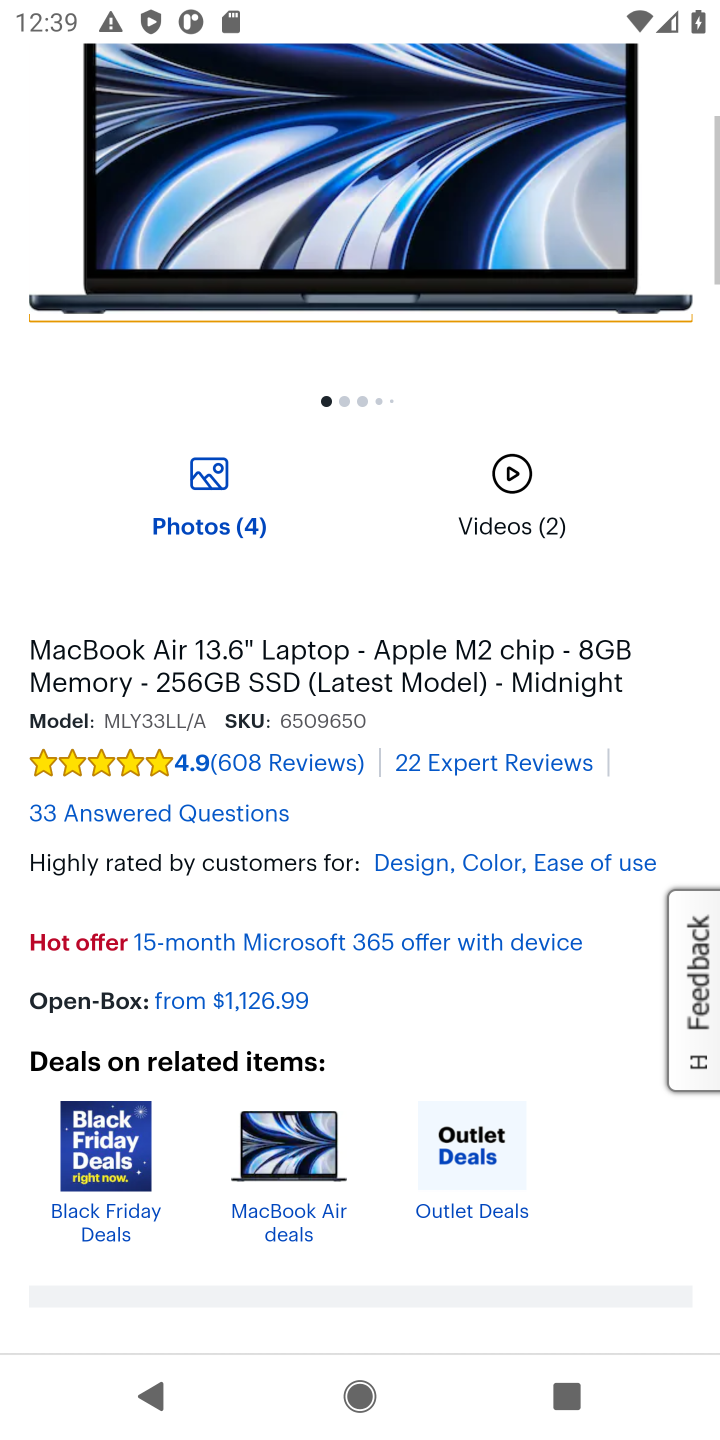
Step 31: drag from (483, 1098) to (455, 296)
Your task to perform on an android device: Show the shopping cart on bestbuy.com. Search for macbook air on bestbuy.com, select the first entry, add it to the cart, then select checkout. Image 32: 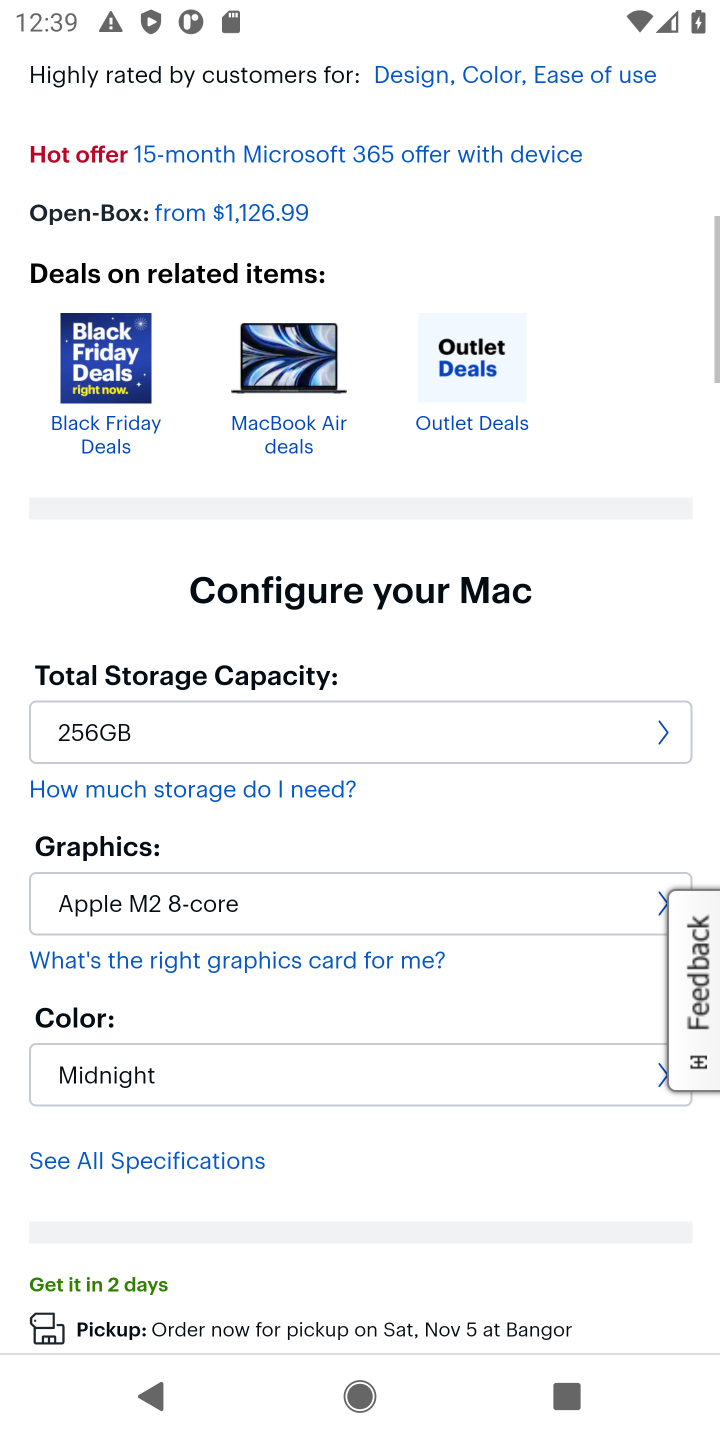
Step 32: drag from (414, 945) to (428, 310)
Your task to perform on an android device: Show the shopping cart on bestbuy.com. Search for macbook air on bestbuy.com, select the first entry, add it to the cart, then select checkout. Image 33: 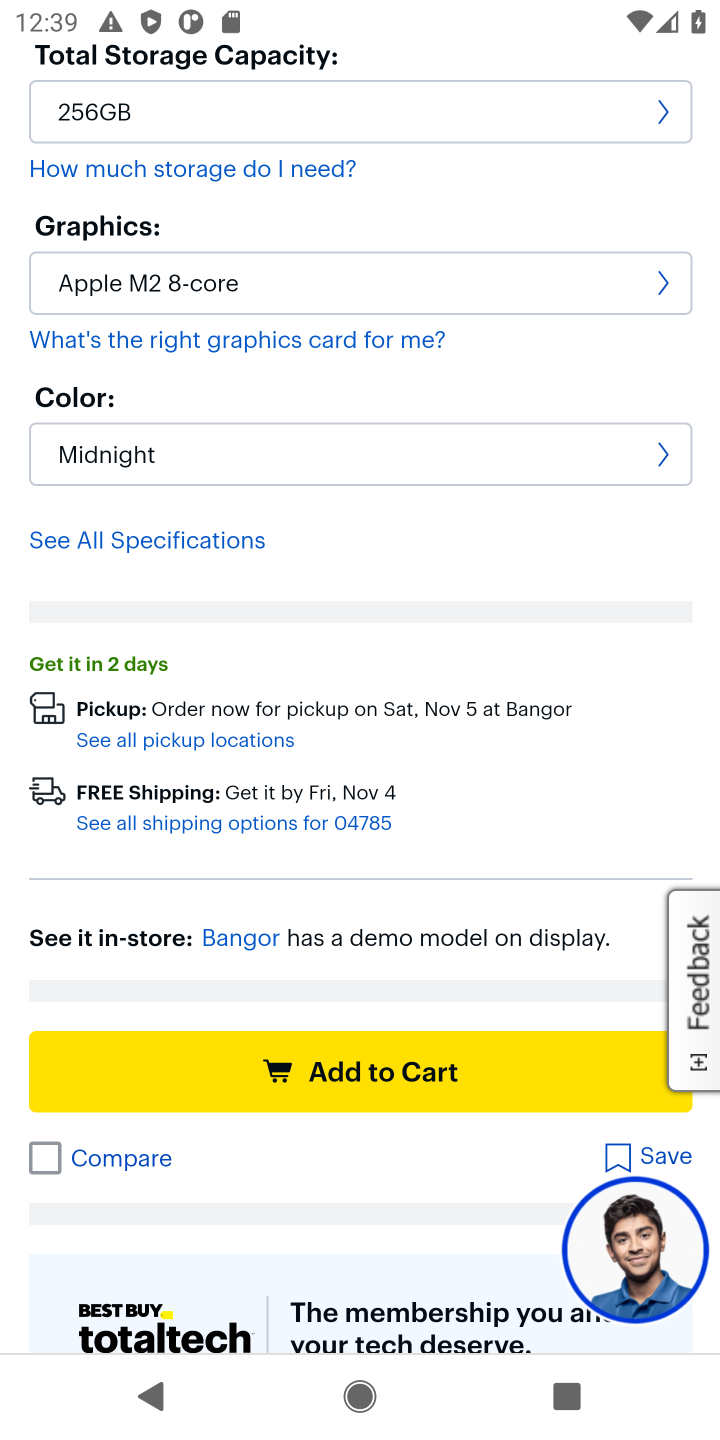
Step 33: click (324, 1212)
Your task to perform on an android device: Show the shopping cart on bestbuy.com. Search for macbook air on bestbuy.com, select the first entry, add it to the cart, then select checkout. Image 34: 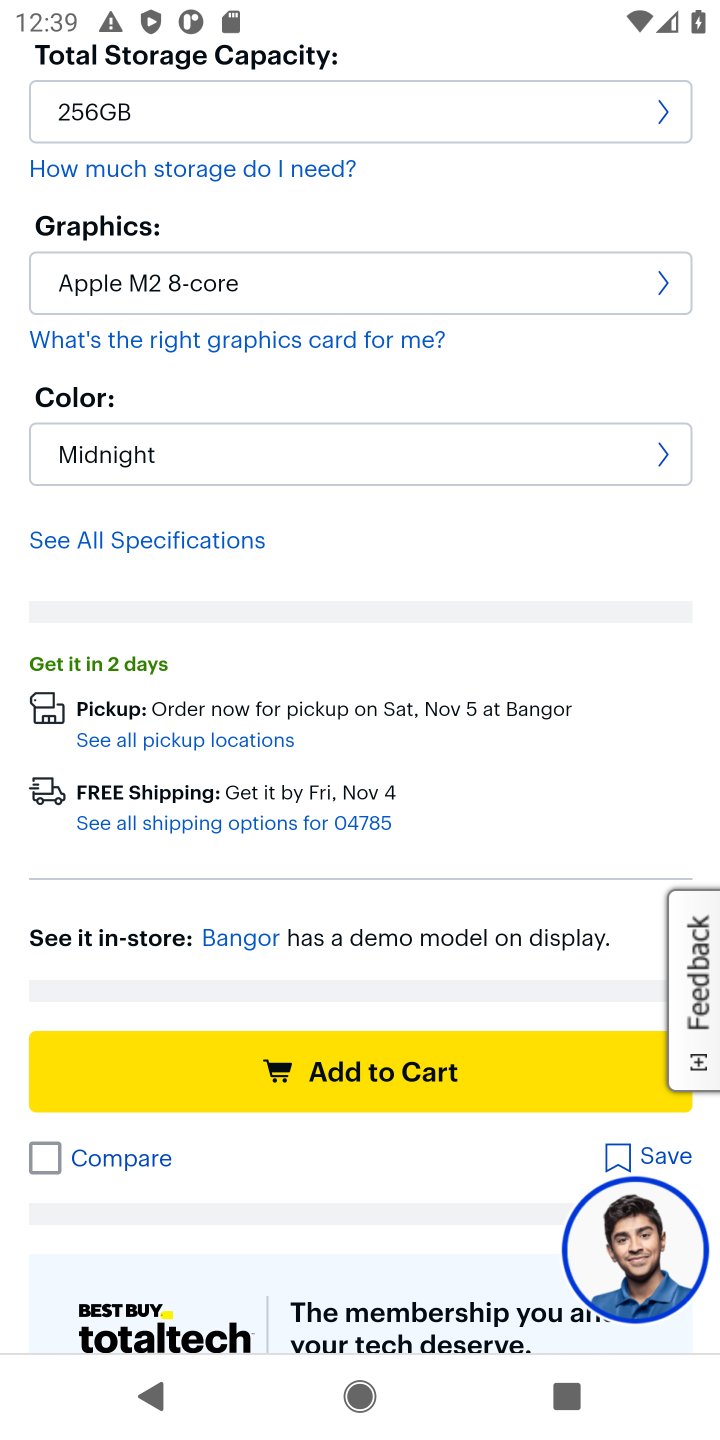
Step 34: click (305, 1057)
Your task to perform on an android device: Show the shopping cart on bestbuy.com. Search for macbook air on bestbuy.com, select the first entry, add it to the cart, then select checkout. Image 35: 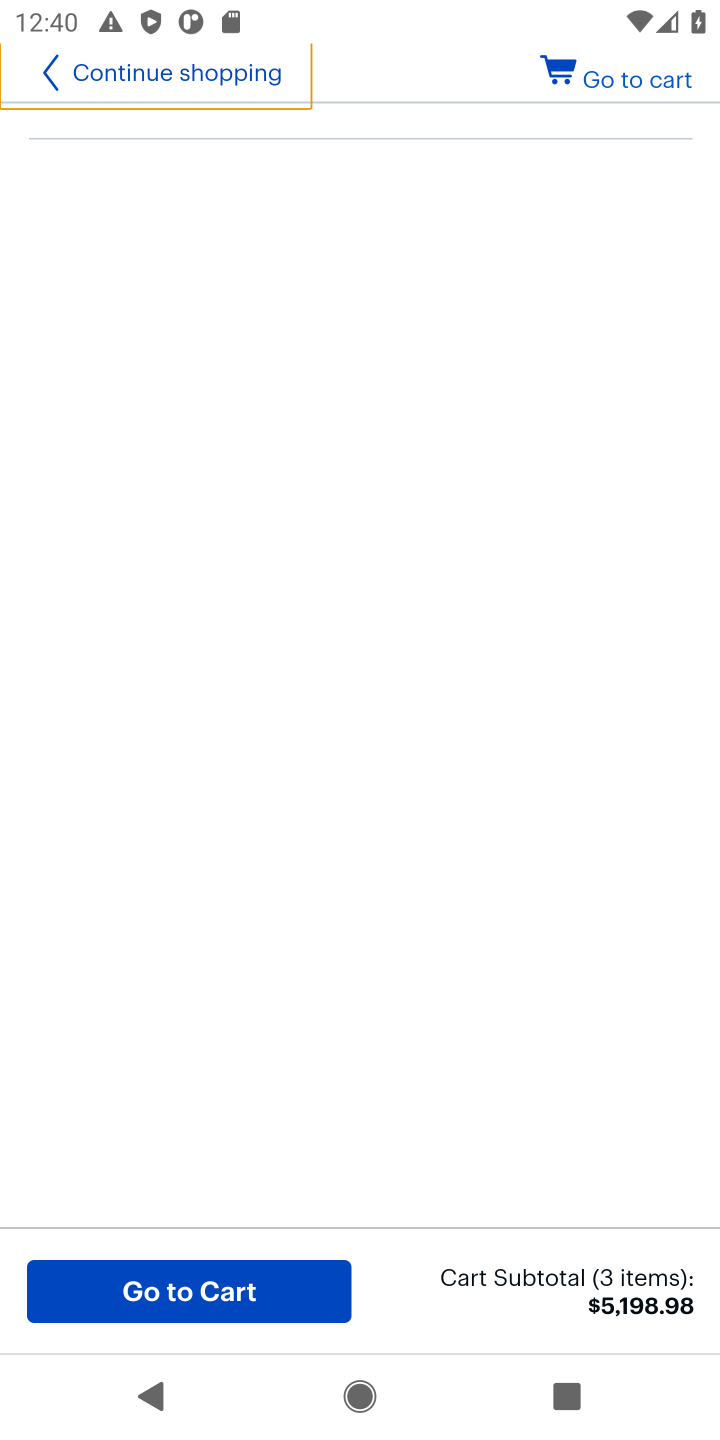
Step 35: task complete